Your task to perform on an android device: set default search engine in the chrome app Image 0: 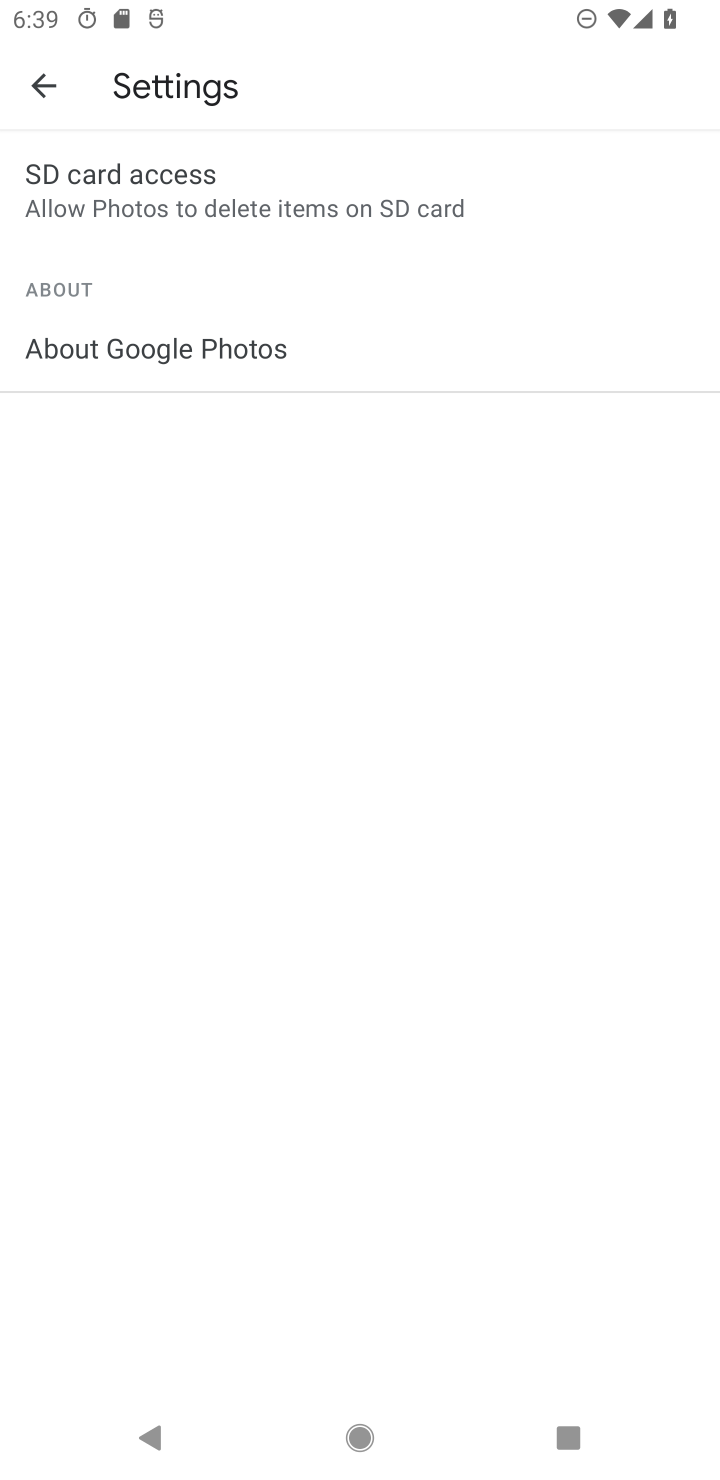
Step 0: press home button
Your task to perform on an android device: set default search engine in the chrome app Image 1: 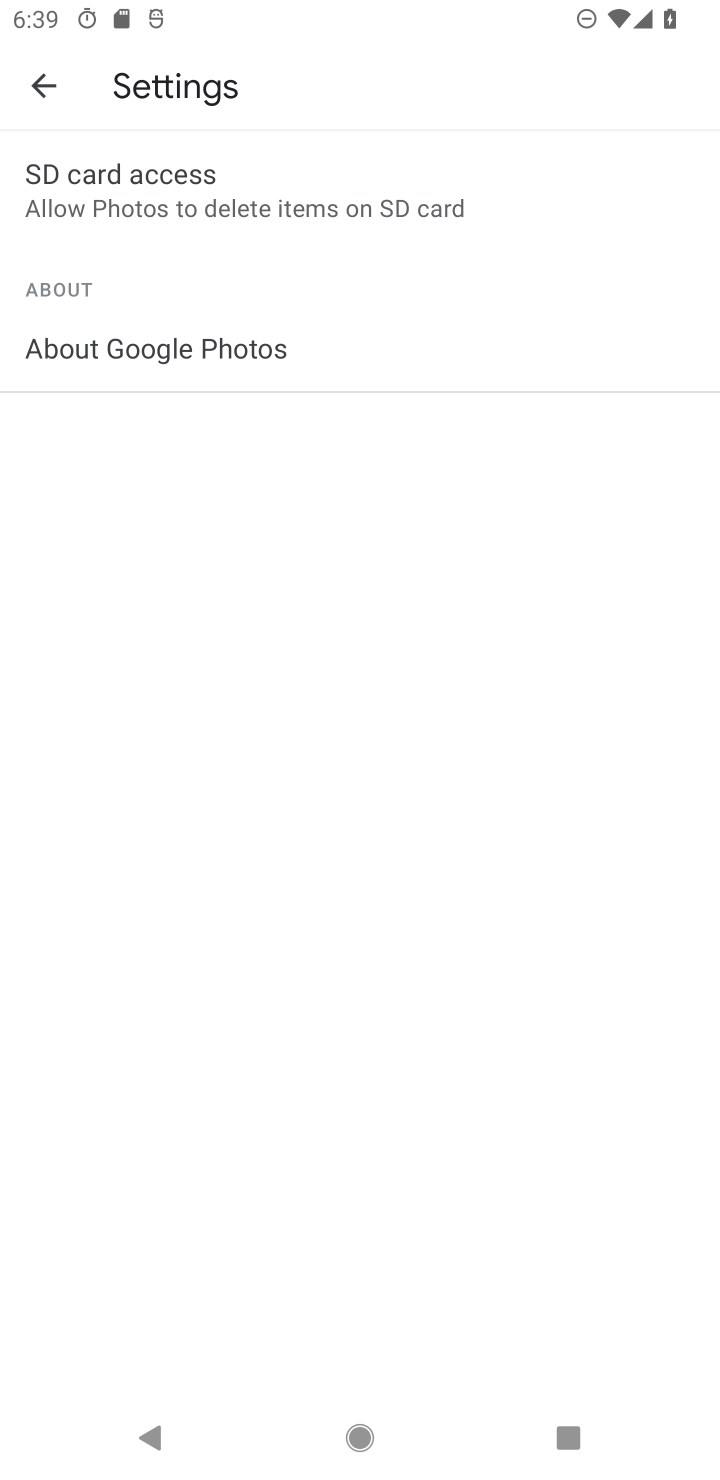
Step 1: drag from (385, 1274) to (476, 75)
Your task to perform on an android device: set default search engine in the chrome app Image 2: 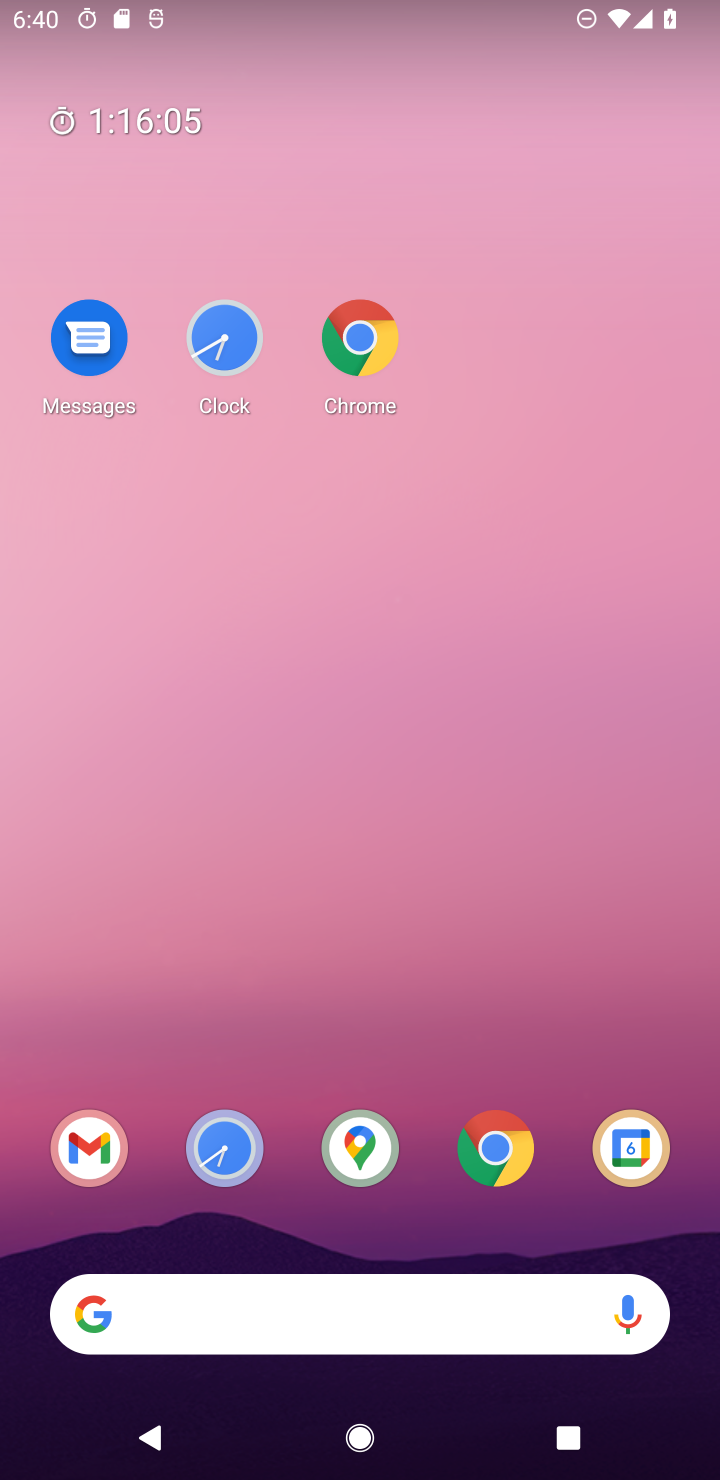
Step 2: click (98, 1142)
Your task to perform on an android device: set default search engine in the chrome app Image 3: 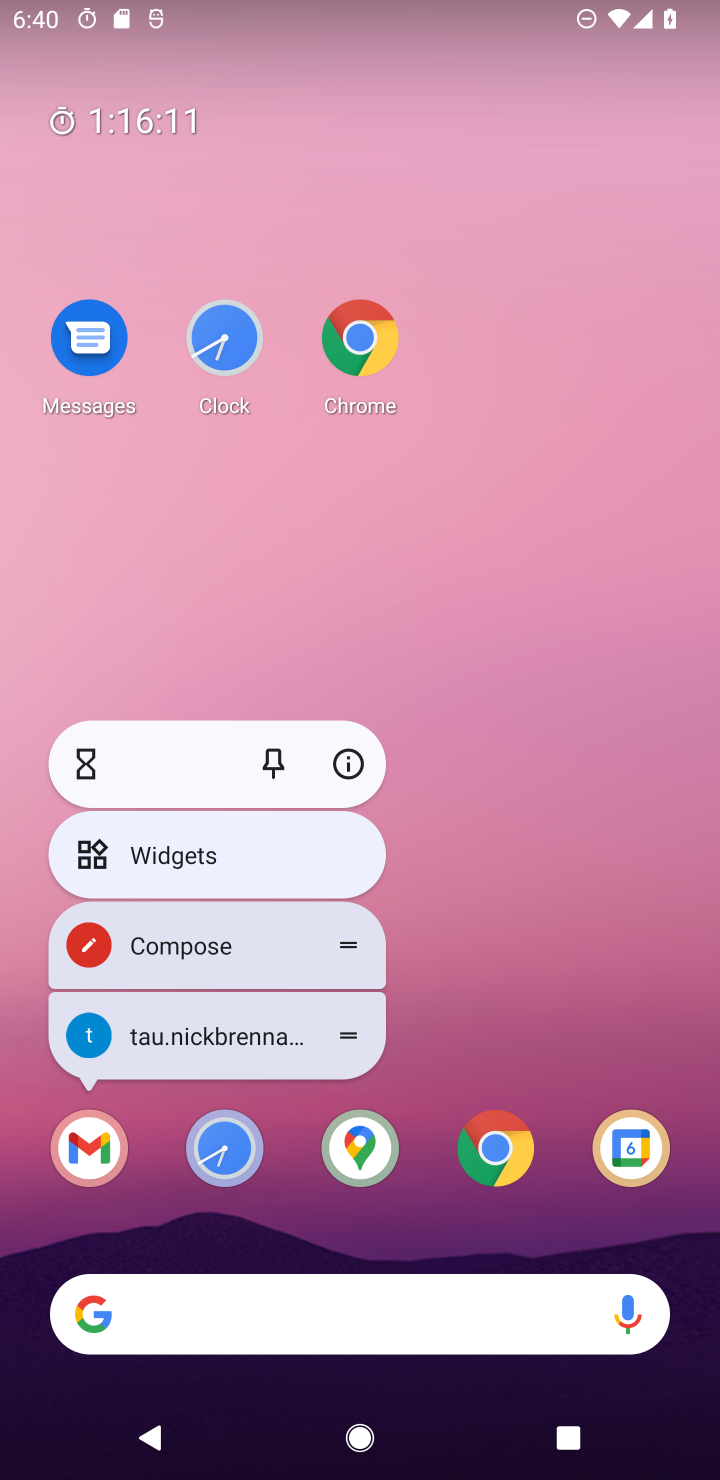
Step 3: click (334, 767)
Your task to perform on an android device: set default search engine in the chrome app Image 4: 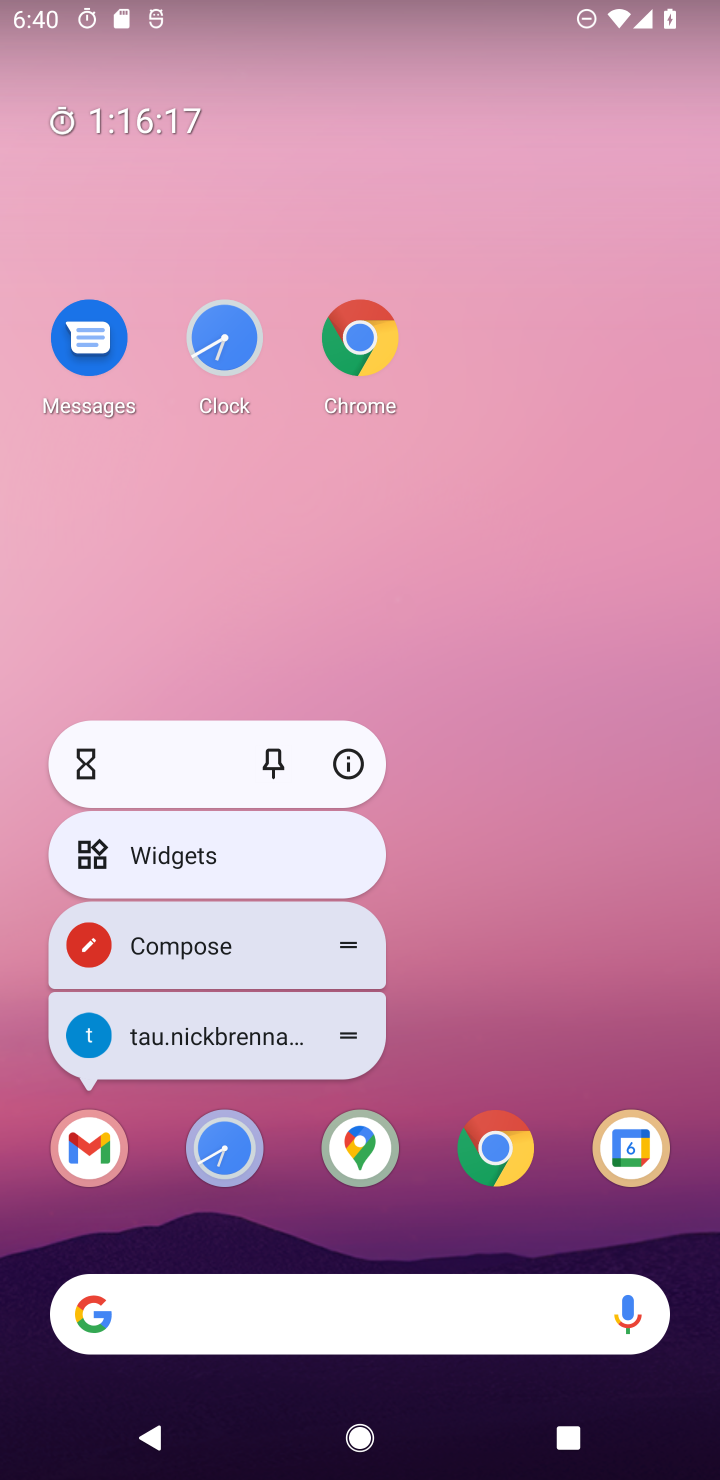
Step 4: click (343, 751)
Your task to perform on an android device: set default search engine in the chrome app Image 5: 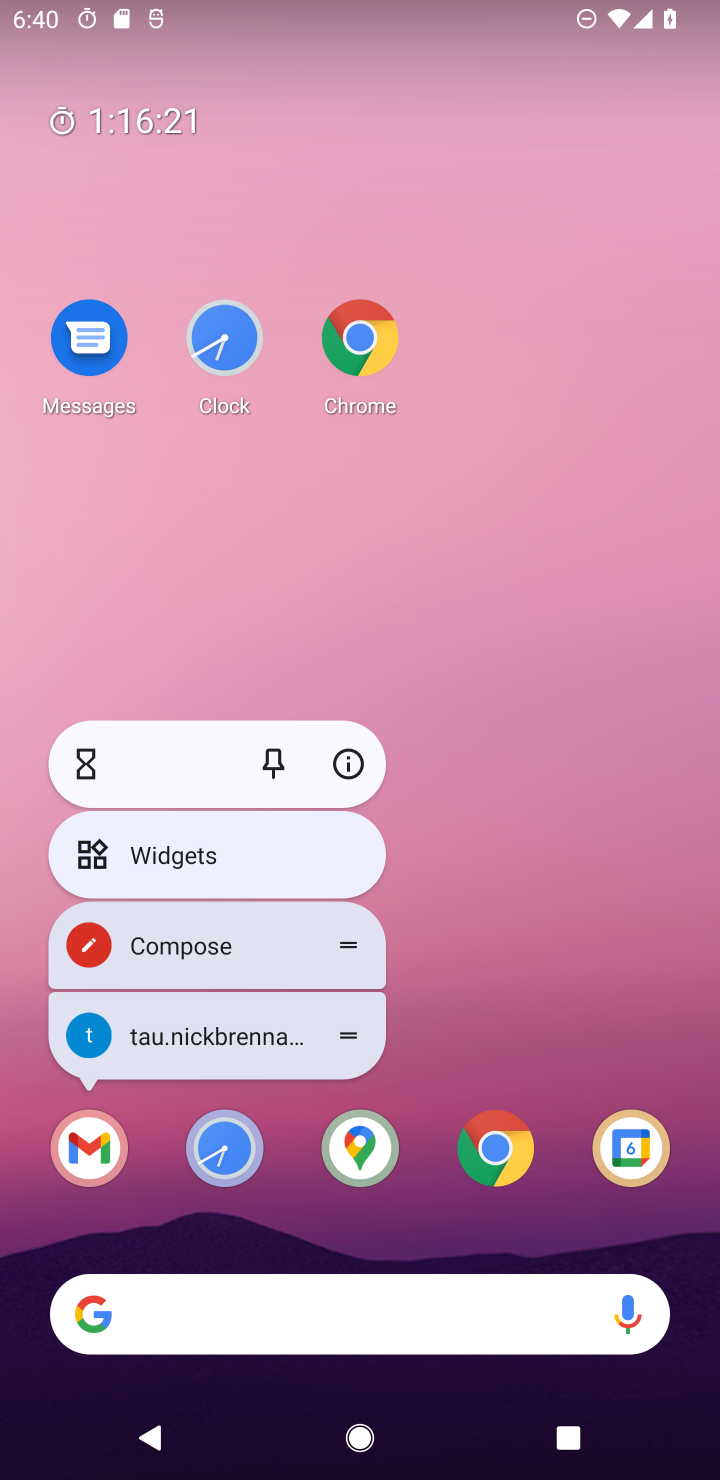
Step 5: click (349, 758)
Your task to perform on an android device: set default search engine in the chrome app Image 6: 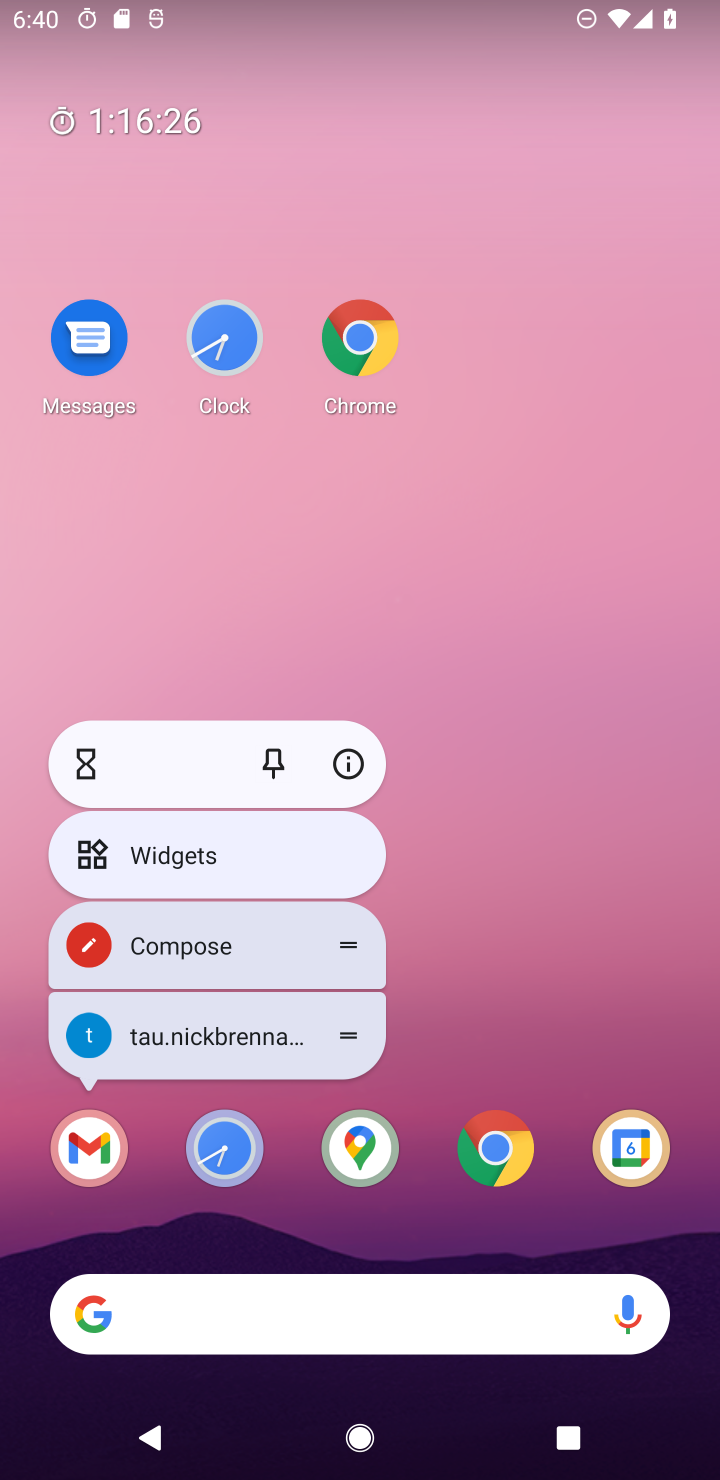
Step 6: click (337, 748)
Your task to perform on an android device: set default search engine in the chrome app Image 7: 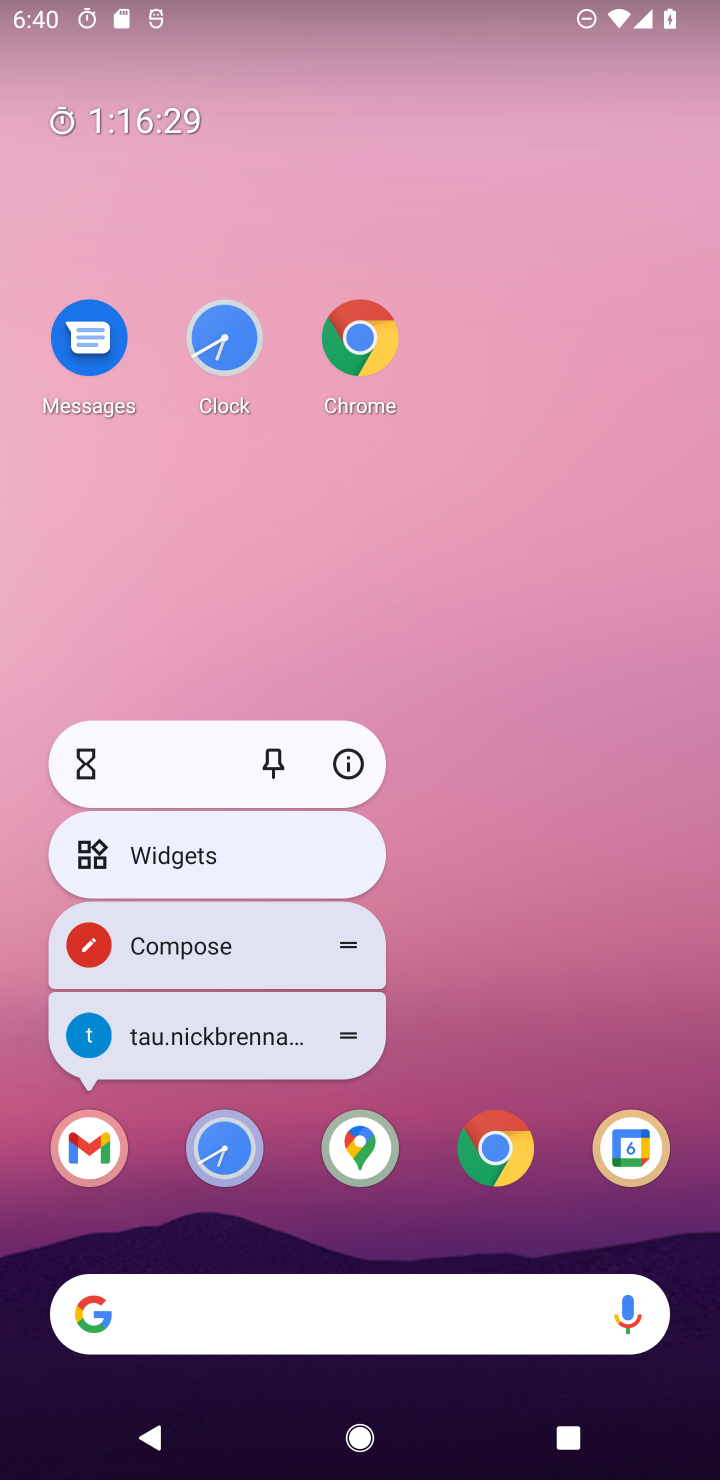
Step 7: click (333, 748)
Your task to perform on an android device: set default search engine in the chrome app Image 8: 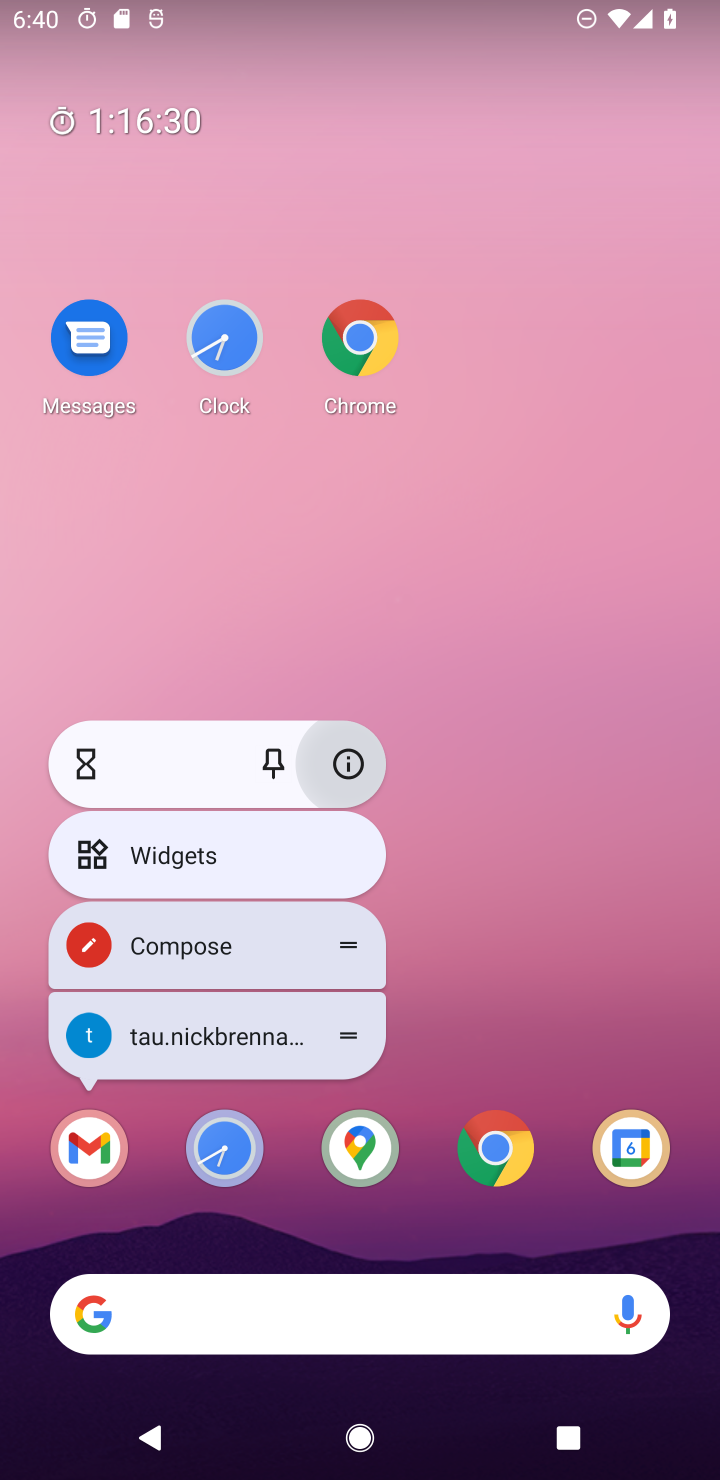
Step 8: click (343, 752)
Your task to perform on an android device: set default search engine in the chrome app Image 9: 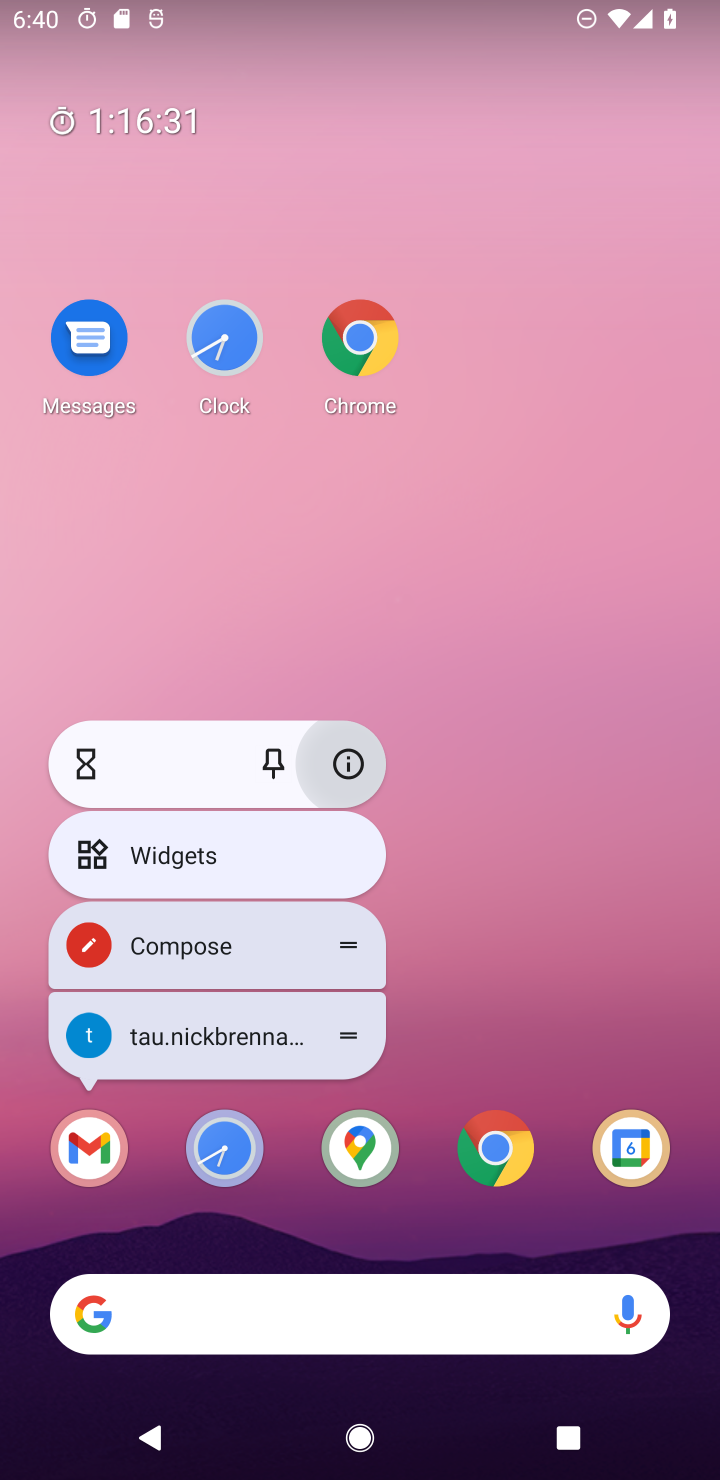
Step 9: click (339, 752)
Your task to perform on an android device: set default search engine in the chrome app Image 10: 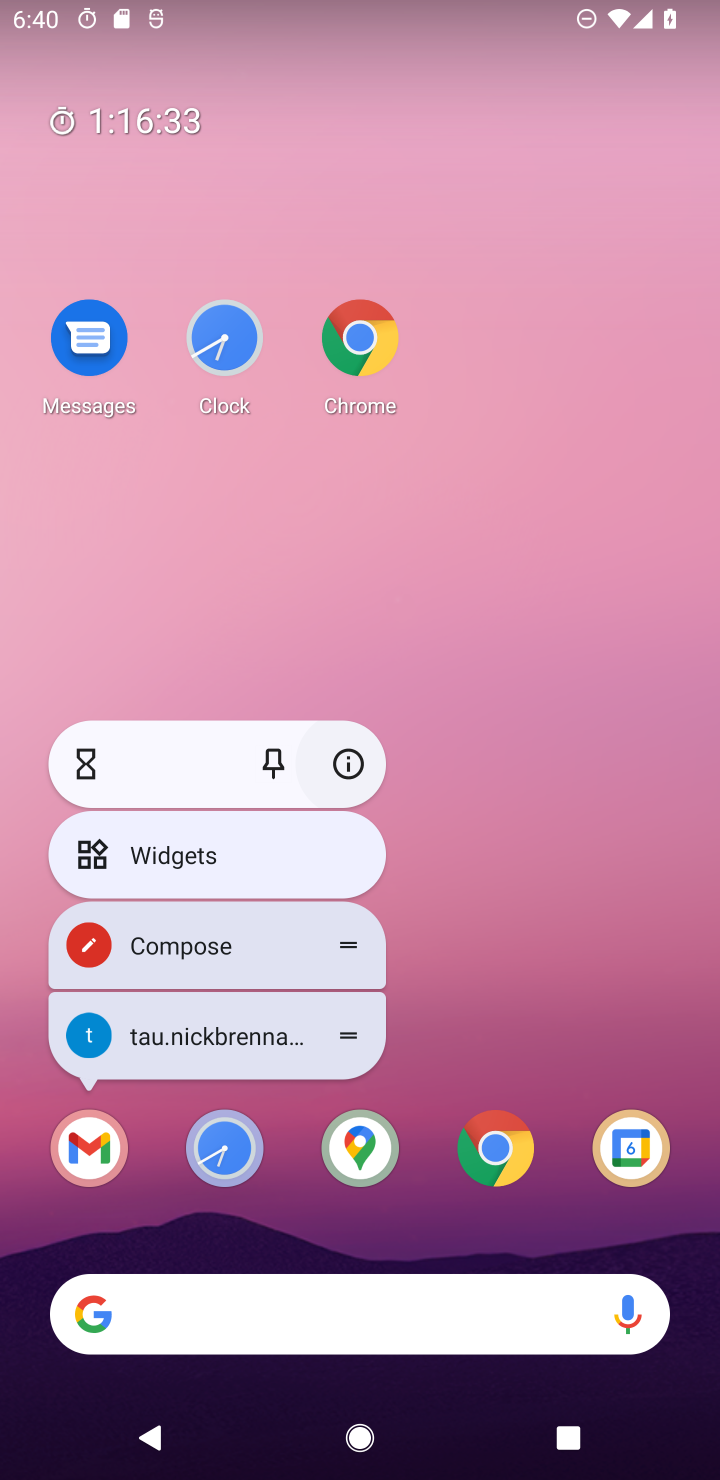
Step 10: click (102, 1124)
Your task to perform on an android device: set default search engine in the chrome app Image 11: 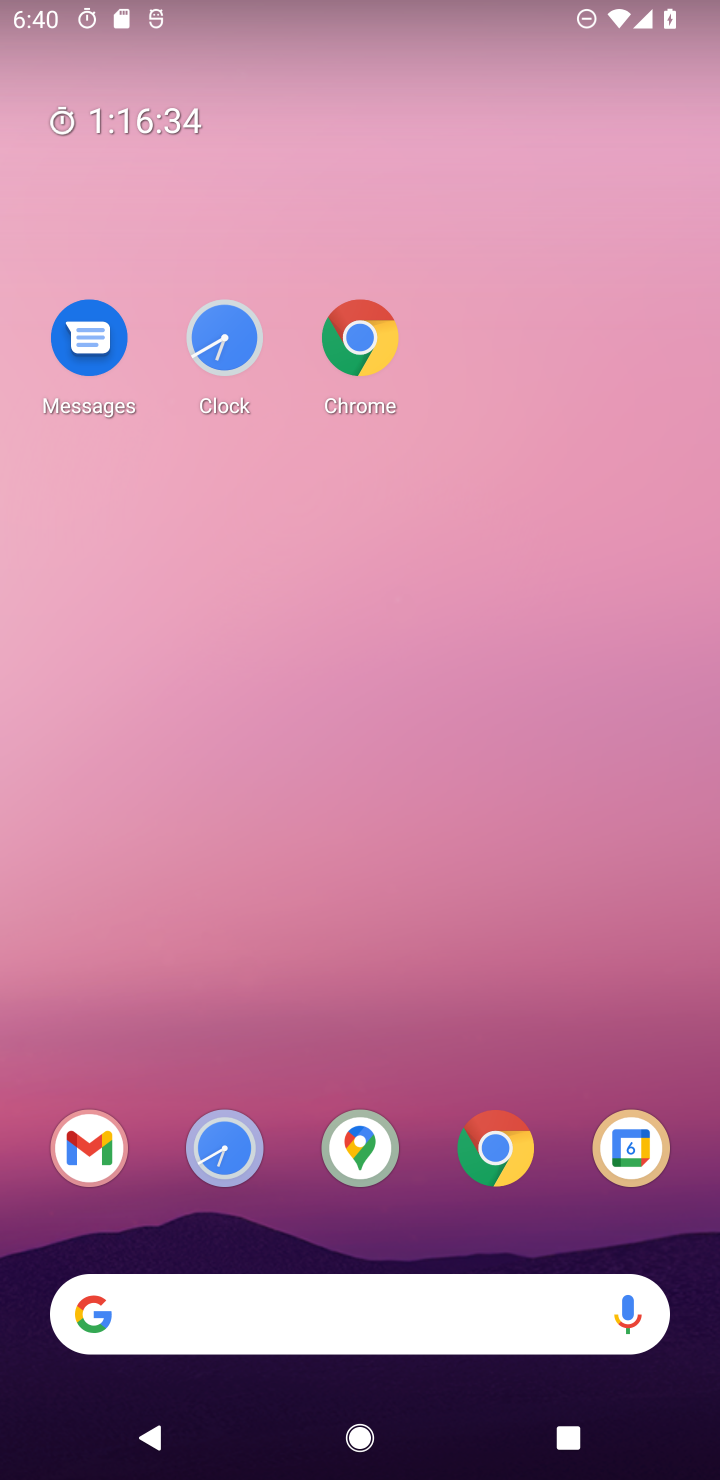
Step 11: click (92, 1120)
Your task to perform on an android device: set default search engine in the chrome app Image 12: 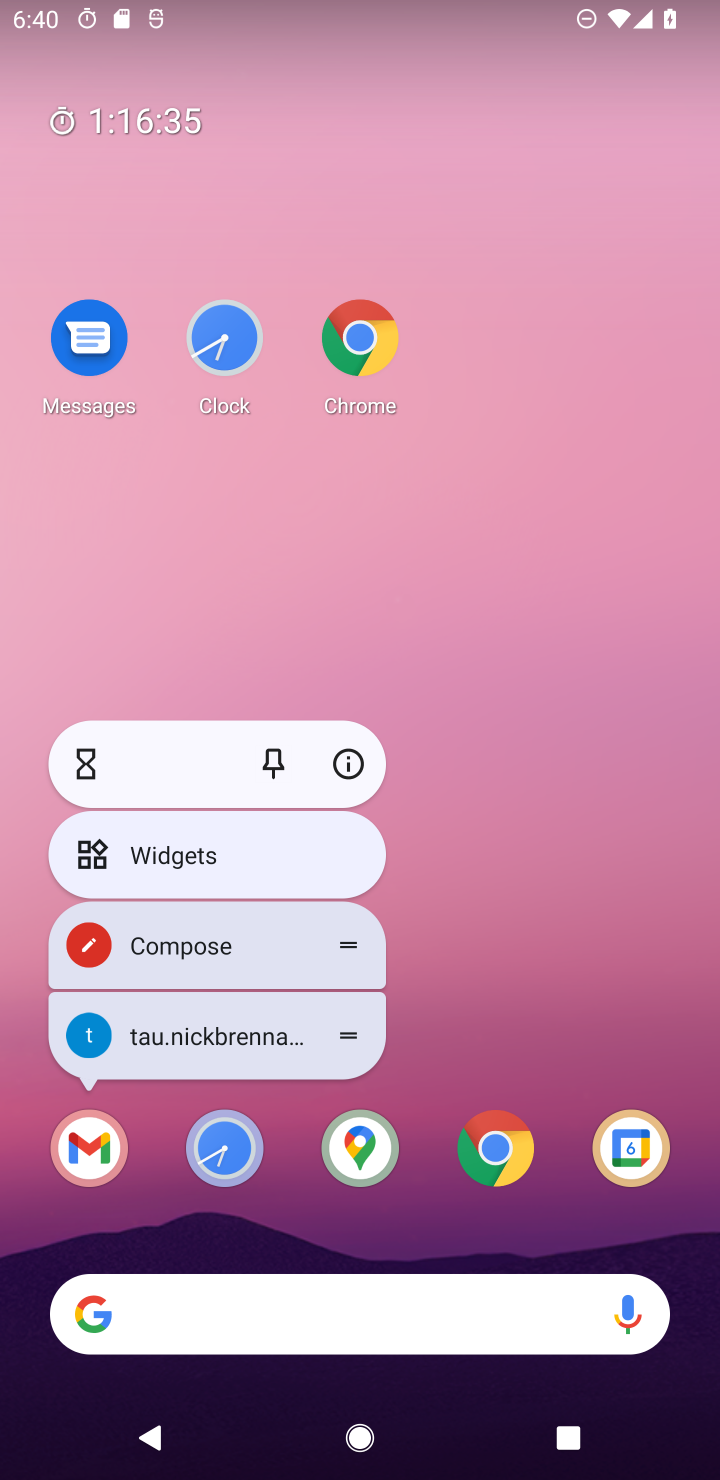
Step 12: click (92, 1120)
Your task to perform on an android device: set default search engine in the chrome app Image 13: 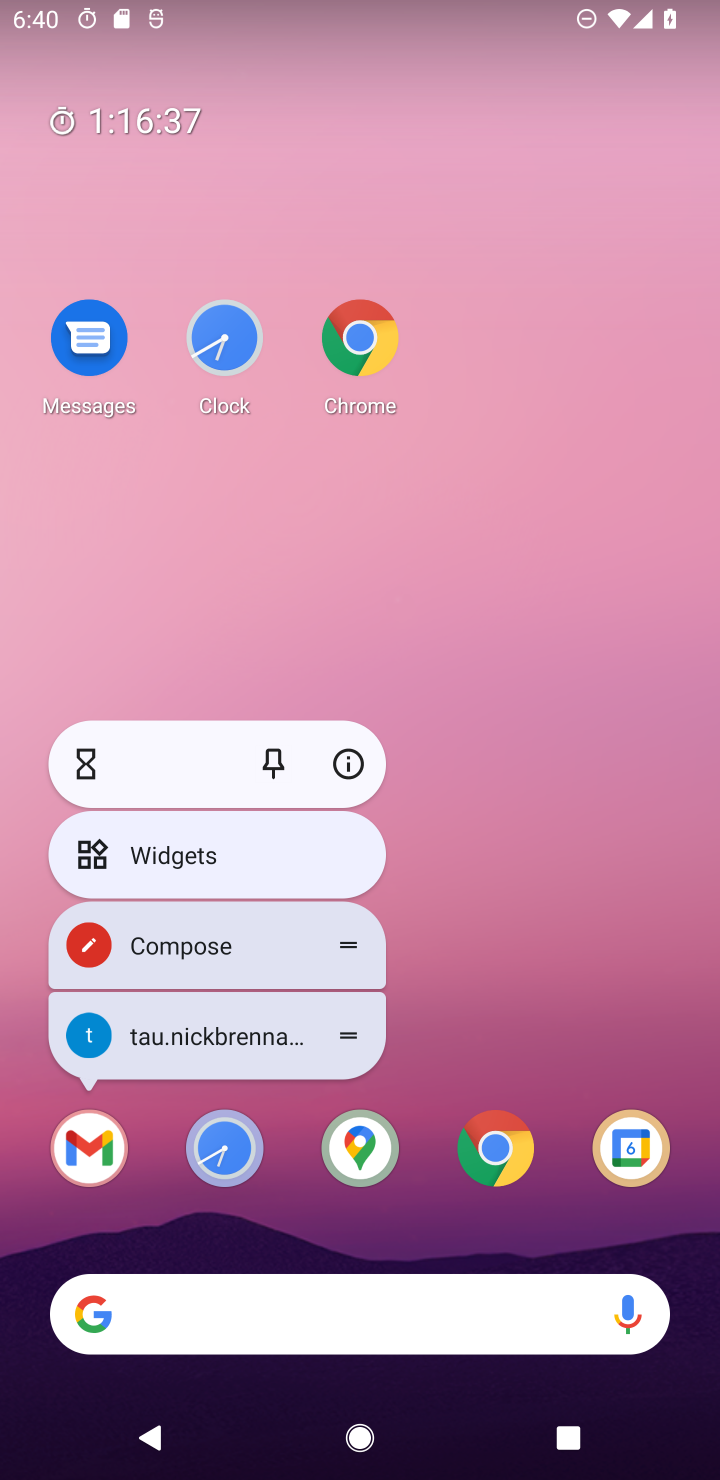
Step 13: click (92, 1120)
Your task to perform on an android device: set default search engine in the chrome app Image 14: 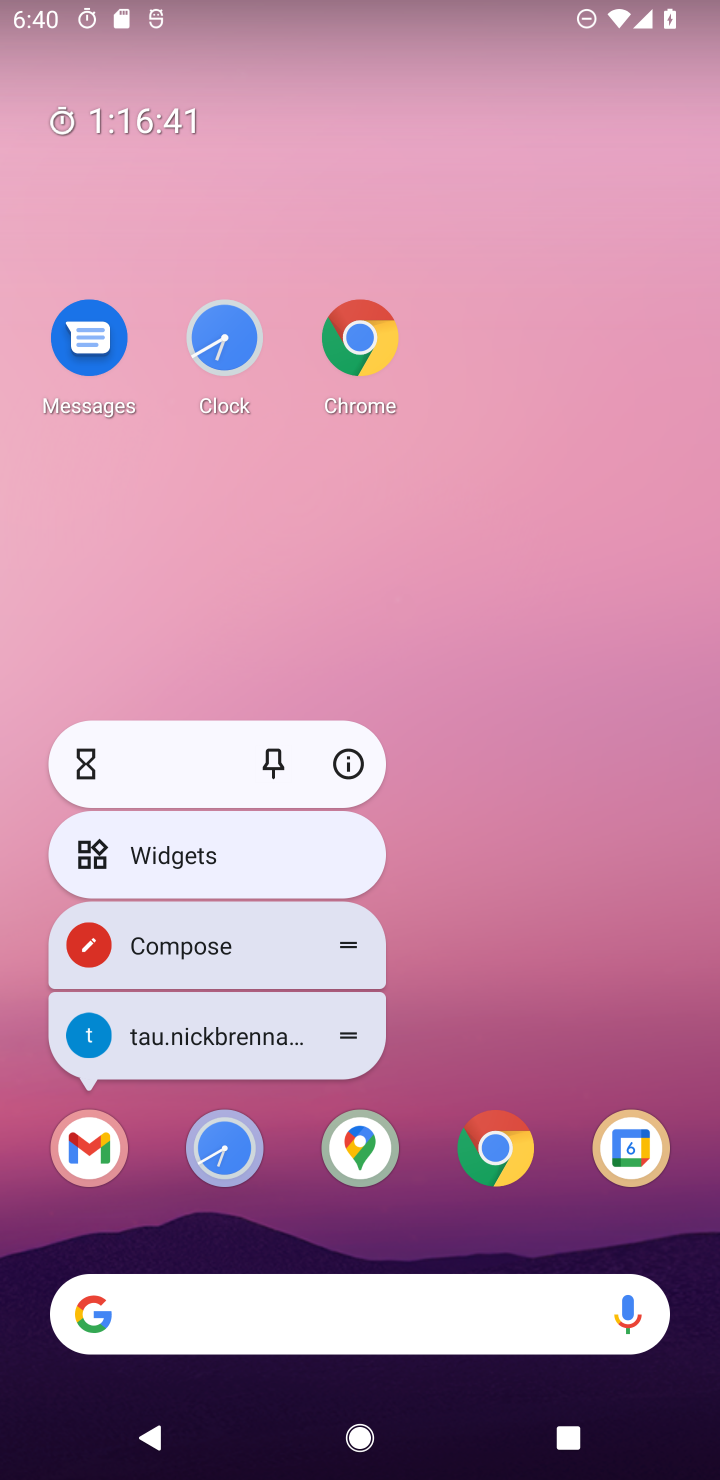
Step 14: click (338, 769)
Your task to perform on an android device: set default search engine in the chrome app Image 15: 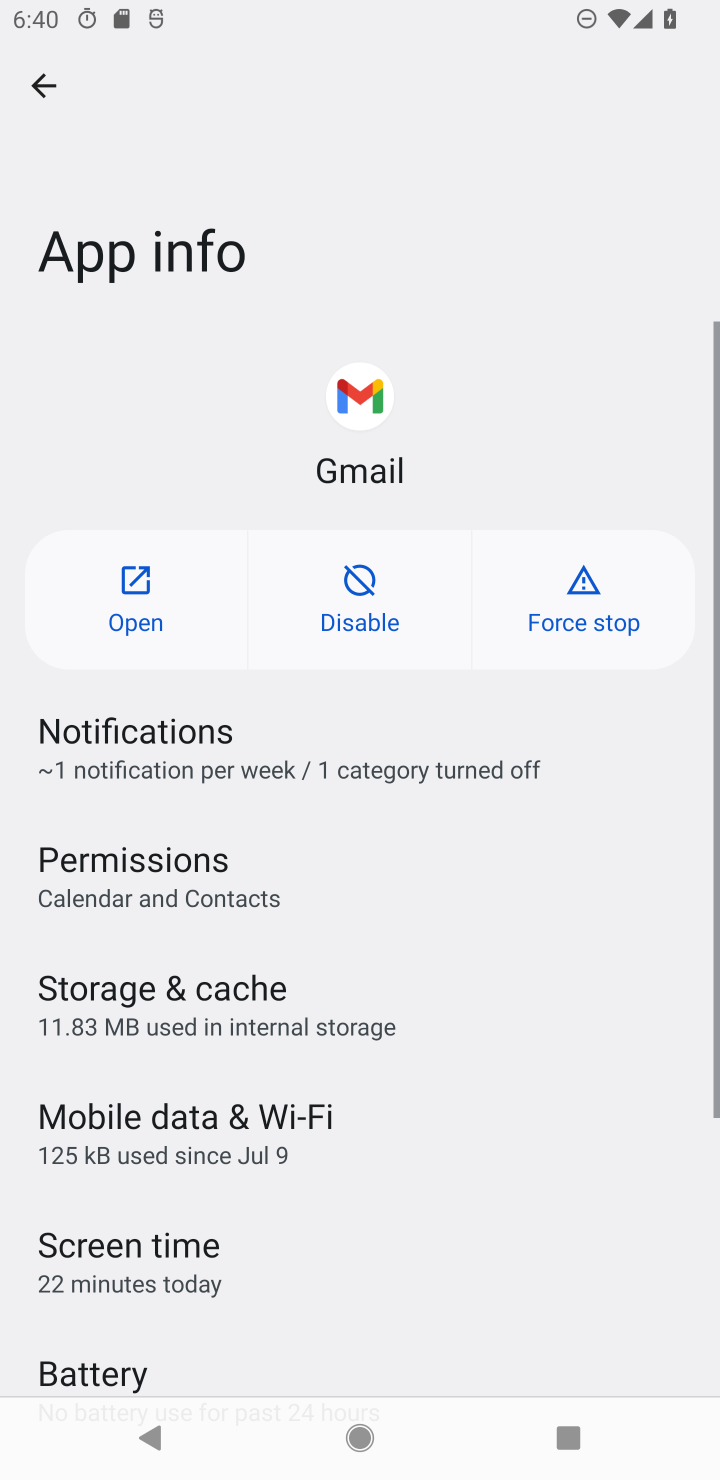
Step 15: click (136, 629)
Your task to perform on an android device: set default search engine in the chrome app Image 16: 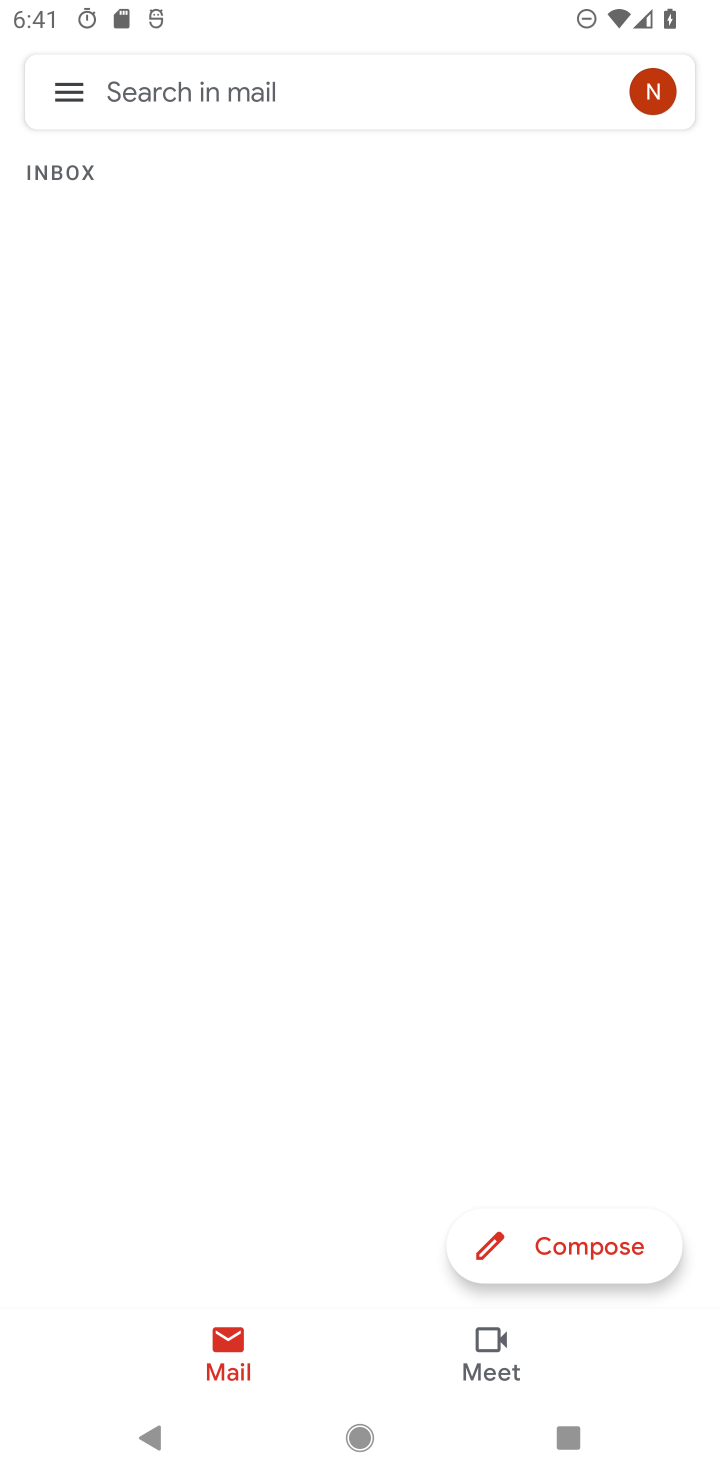
Step 16: press home button
Your task to perform on an android device: set default search engine in the chrome app Image 17: 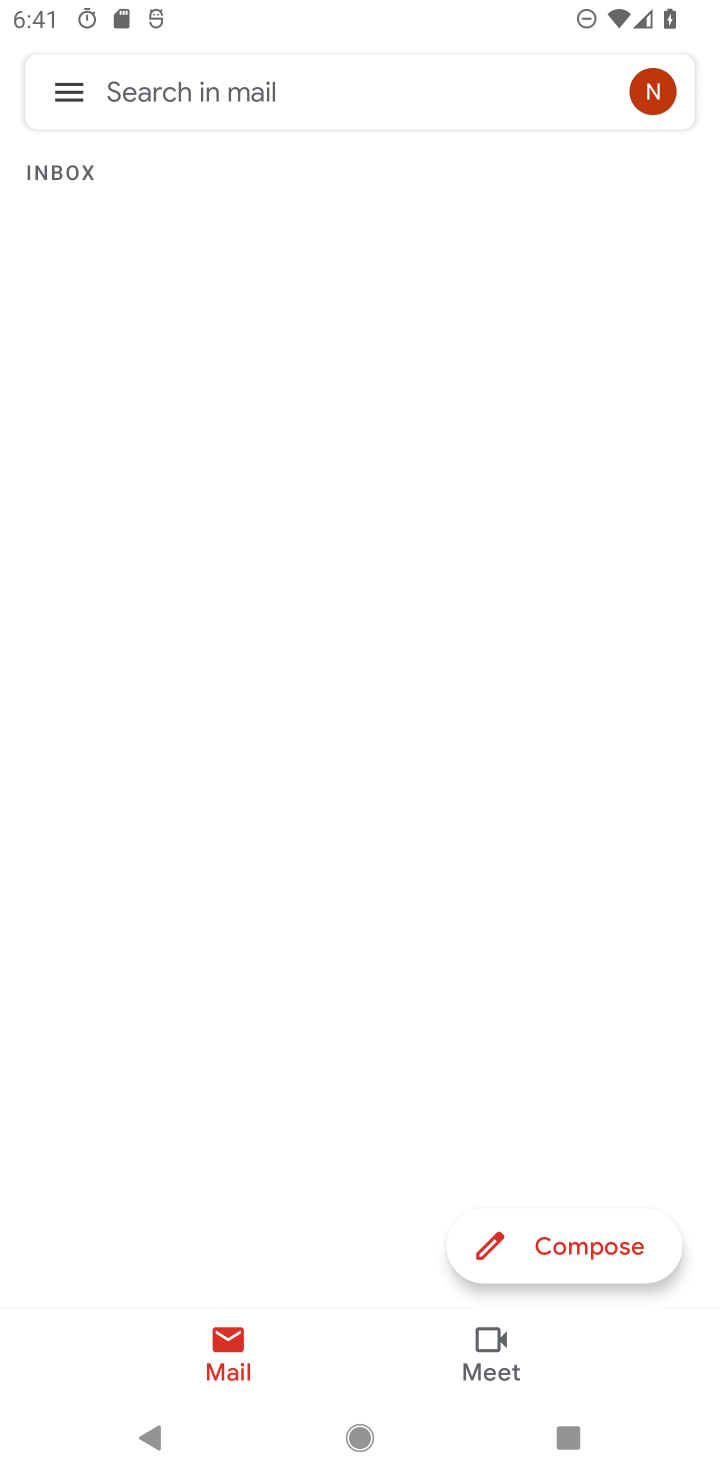
Step 17: drag from (381, 1085) to (412, 398)
Your task to perform on an android device: set default search engine in the chrome app Image 18: 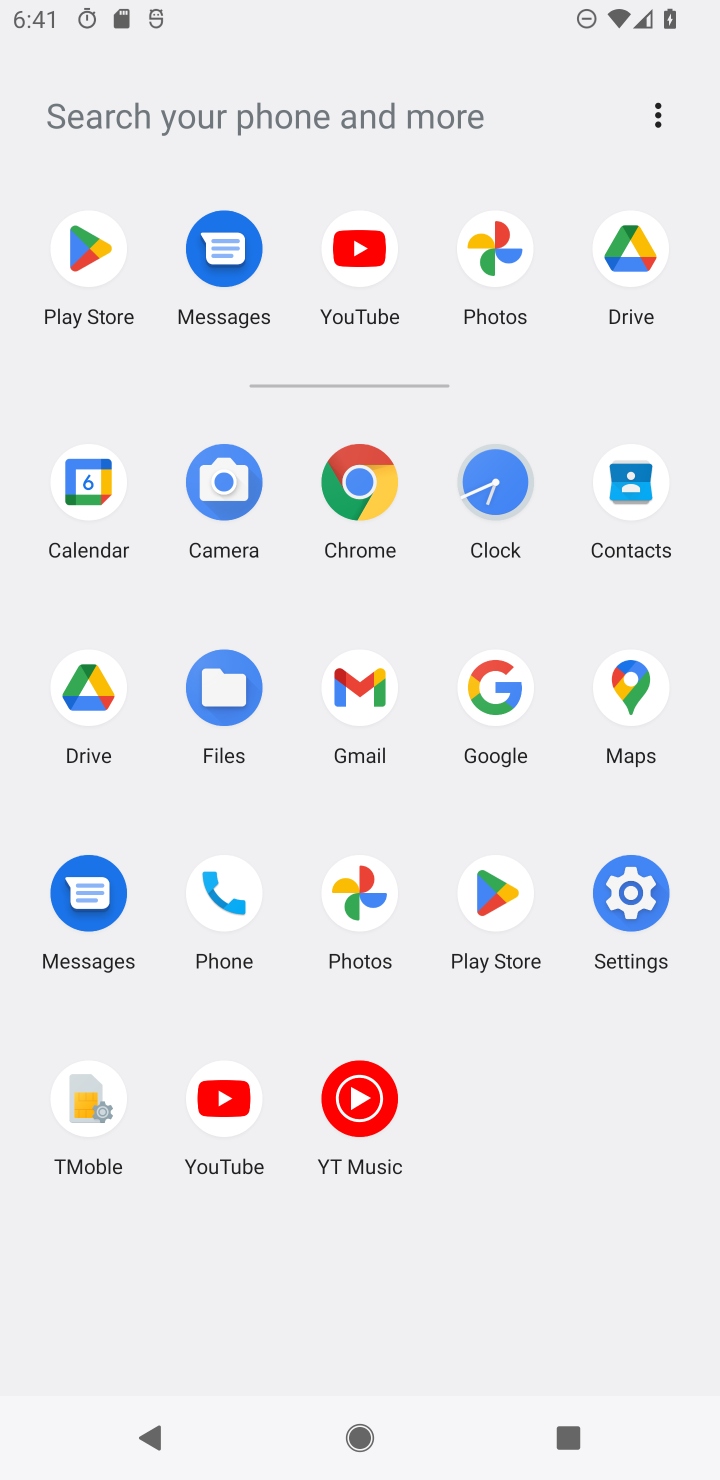
Step 18: click (368, 482)
Your task to perform on an android device: set default search engine in the chrome app Image 19: 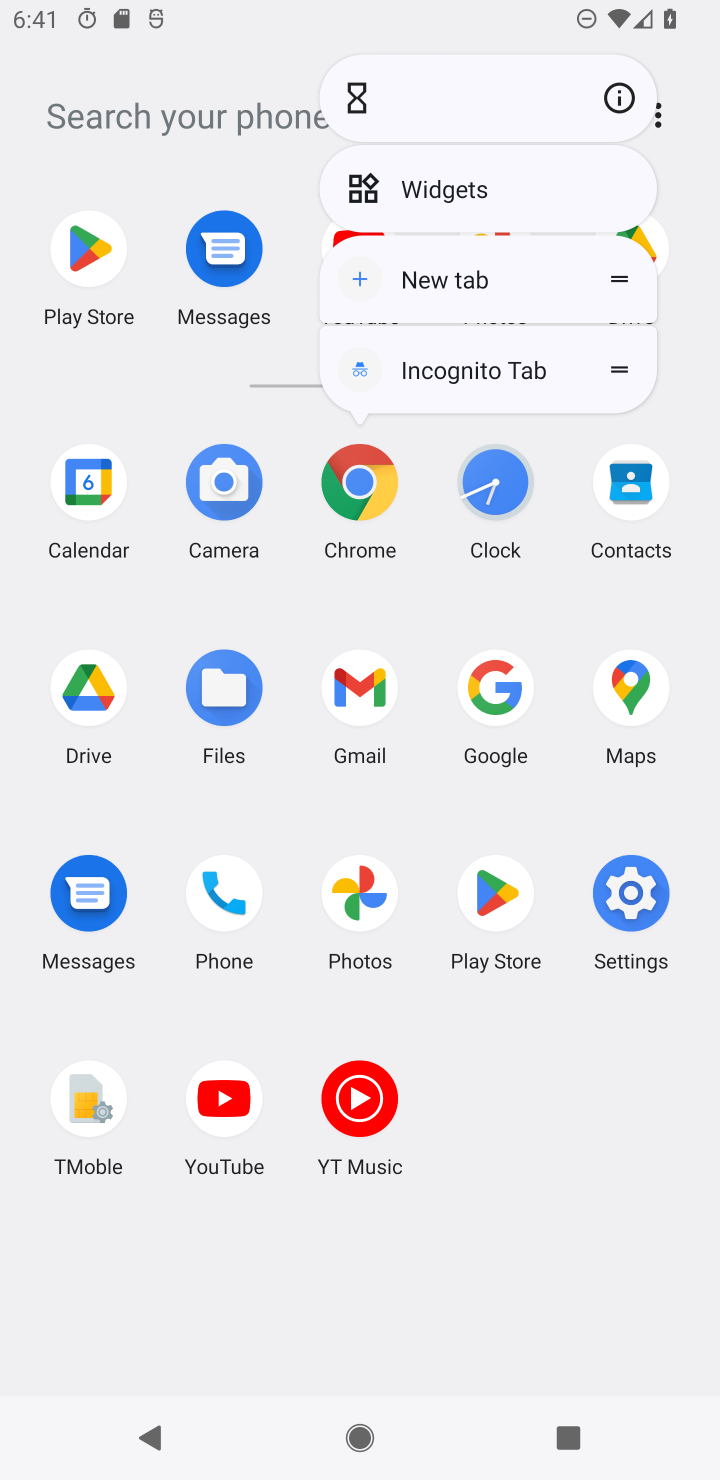
Step 19: click (363, 487)
Your task to perform on an android device: set default search engine in the chrome app Image 20: 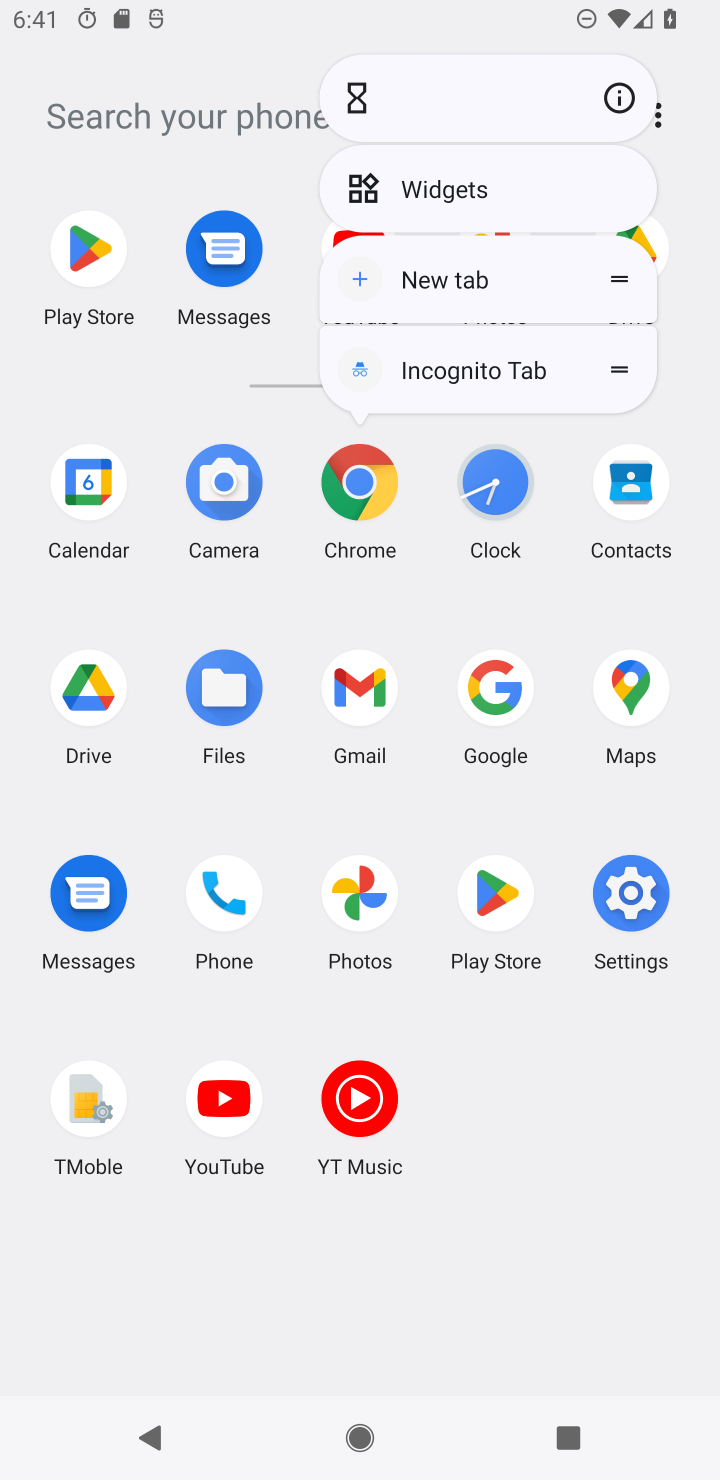
Step 20: click (363, 487)
Your task to perform on an android device: set default search engine in the chrome app Image 21: 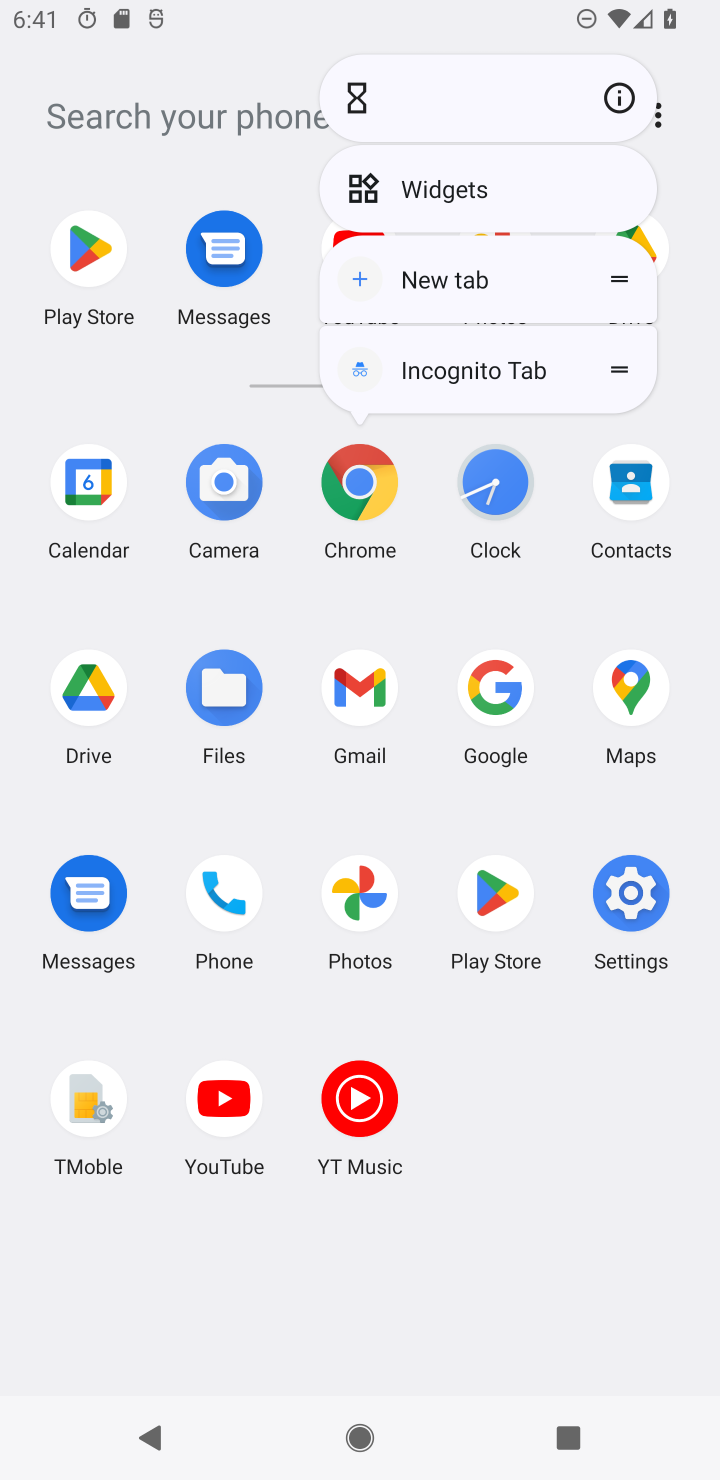
Step 21: click (363, 487)
Your task to perform on an android device: set default search engine in the chrome app Image 22: 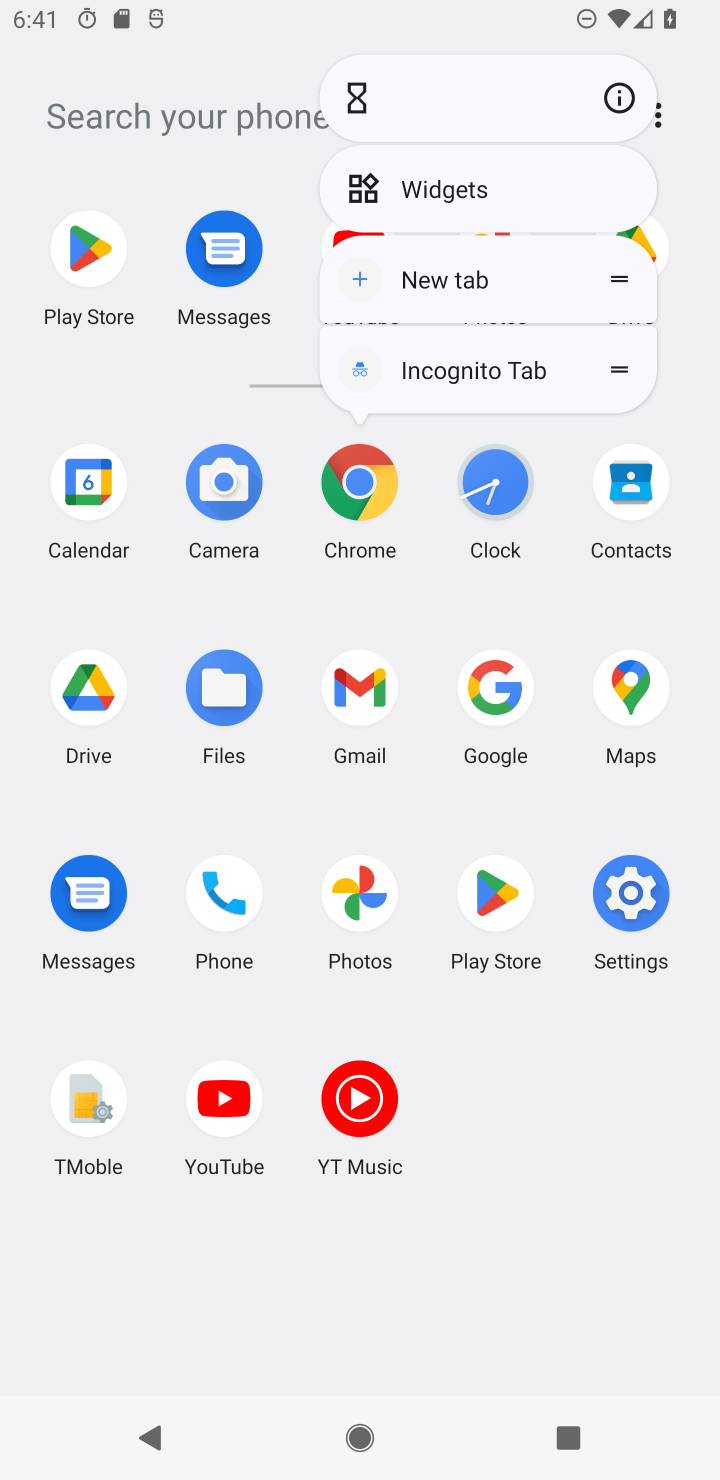
Step 22: click (363, 487)
Your task to perform on an android device: set default search engine in the chrome app Image 23: 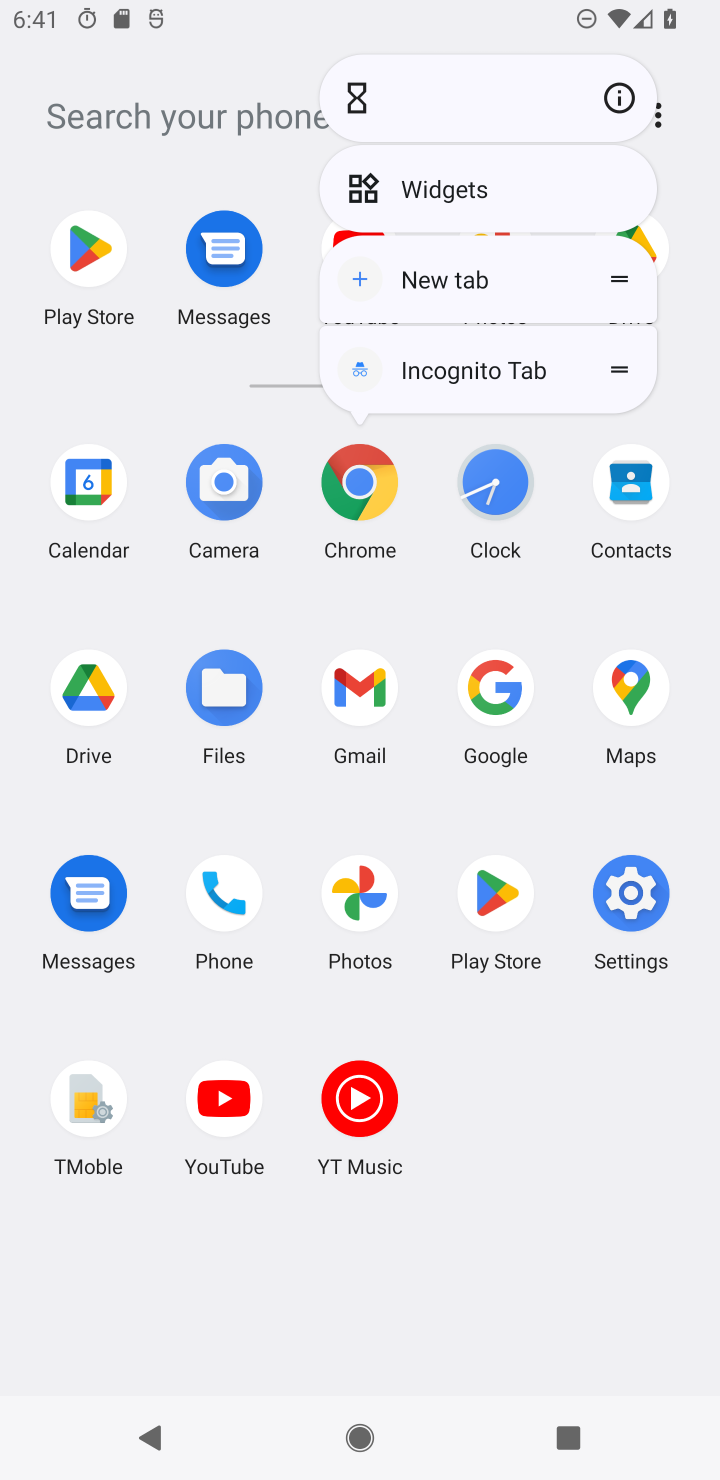
Step 23: click (613, 78)
Your task to perform on an android device: set default search engine in the chrome app Image 24: 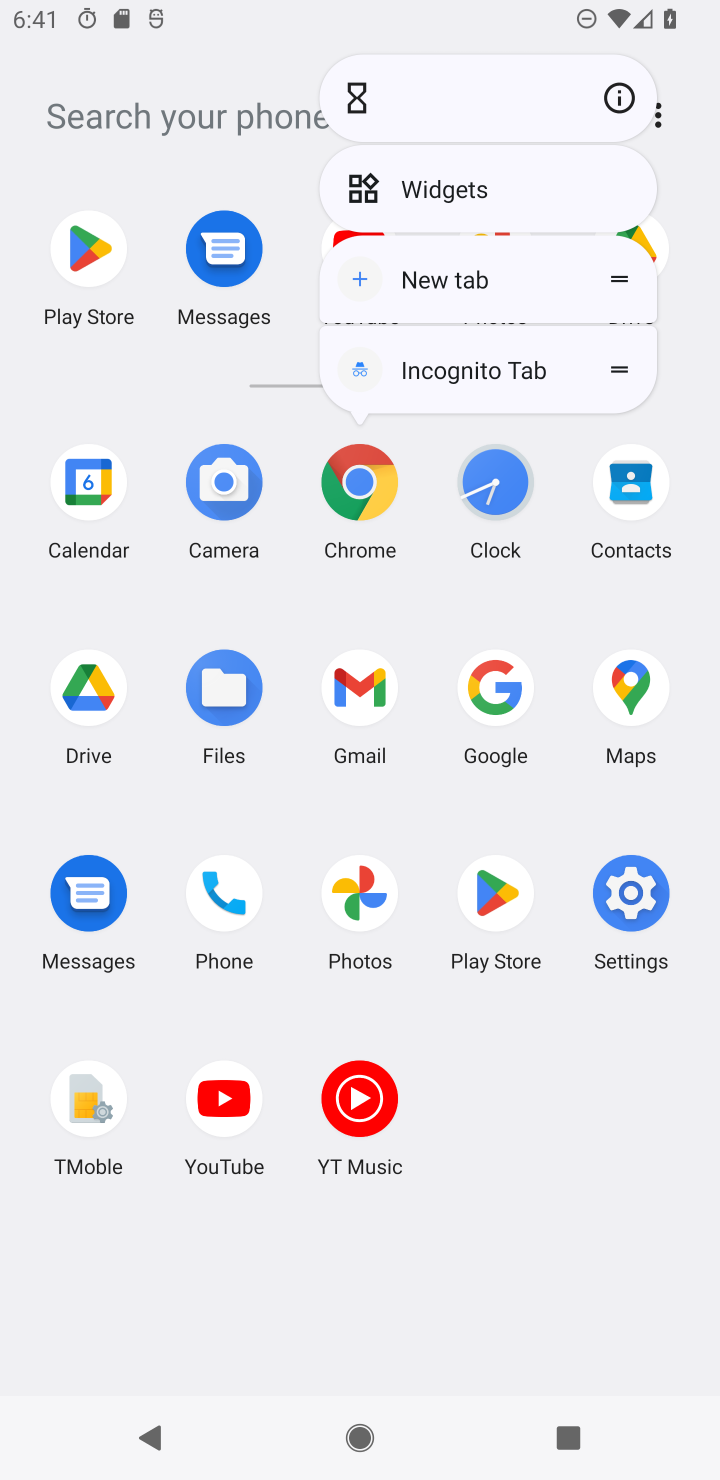
Step 24: click (627, 88)
Your task to perform on an android device: set default search engine in the chrome app Image 25: 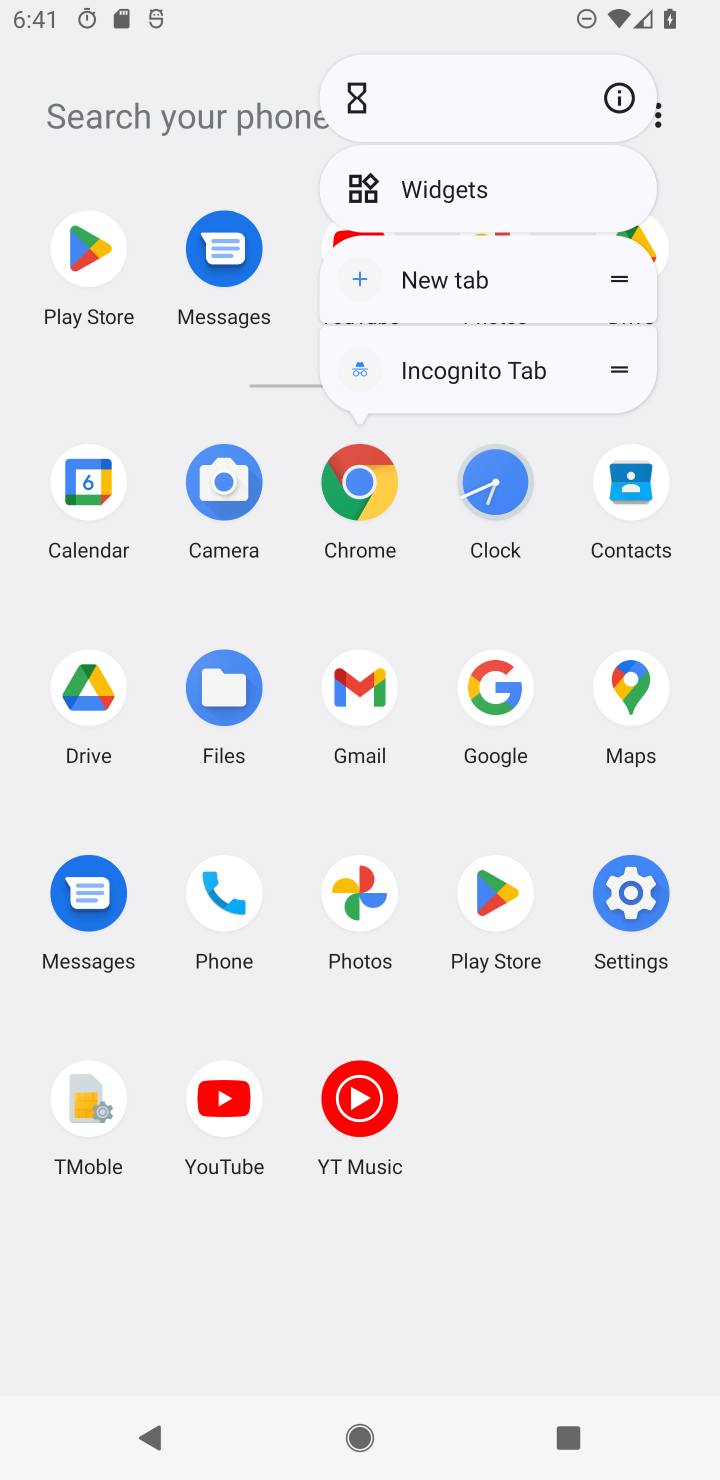
Step 25: click (365, 495)
Your task to perform on an android device: set default search engine in the chrome app Image 26: 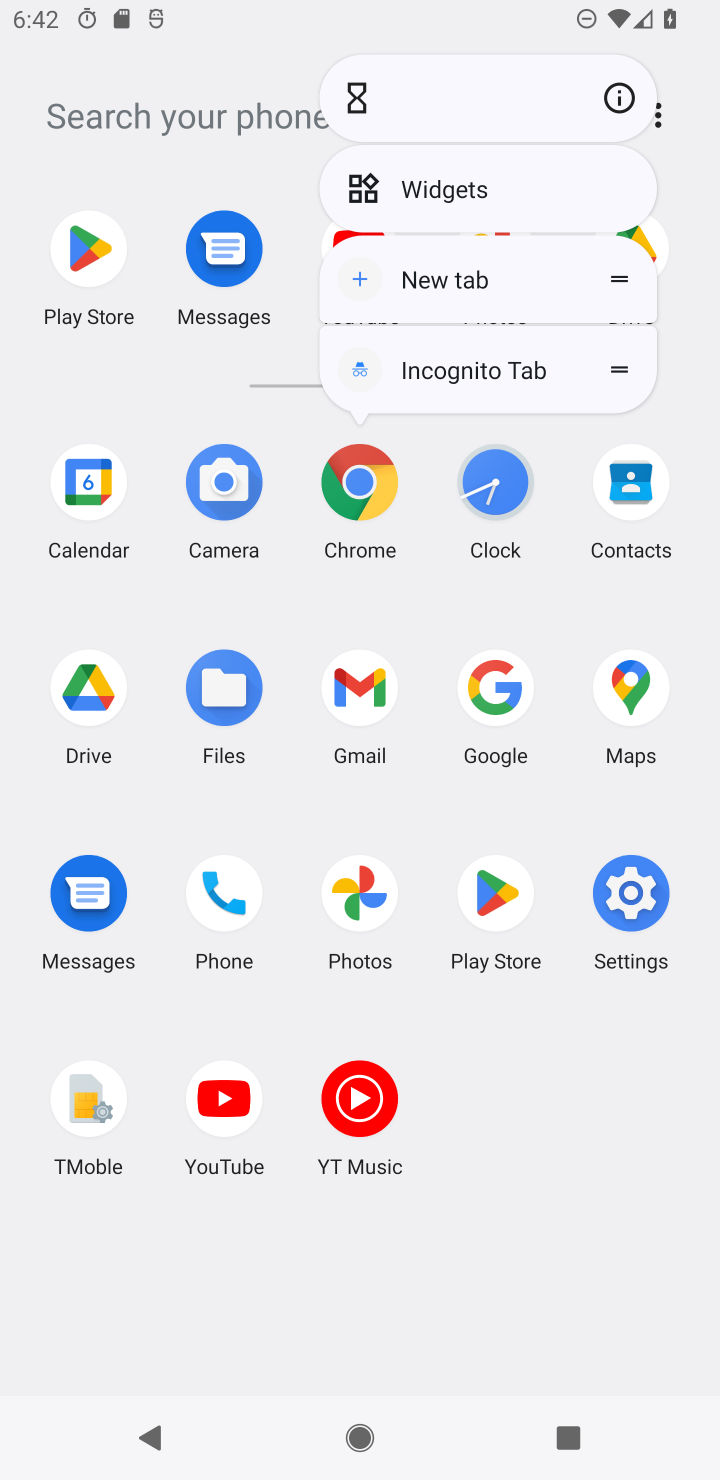
Step 26: click (627, 101)
Your task to perform on an android device: set default search engine in the chrome app Image 27: 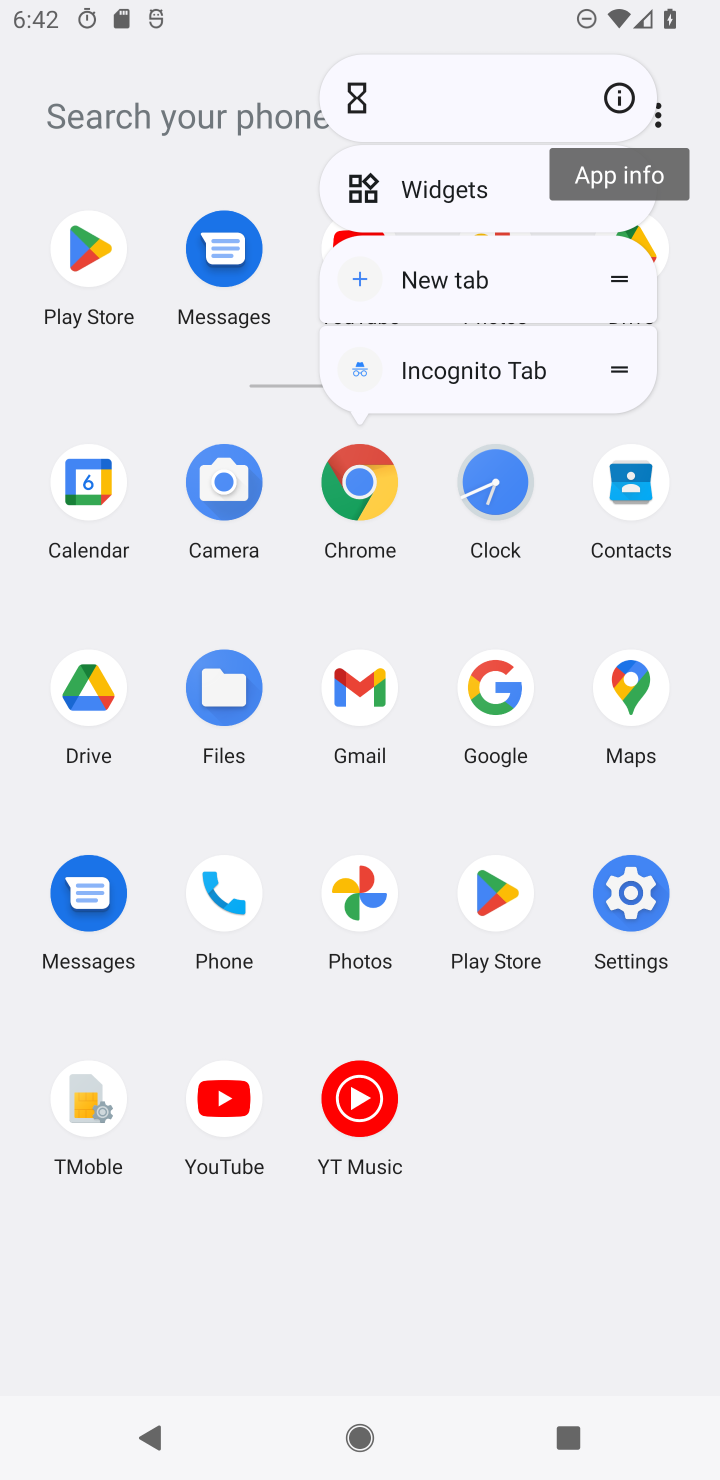
Step 27: click (625, 97)
Your task to perform on an android device: set default search engine in the chrome app Image 28: 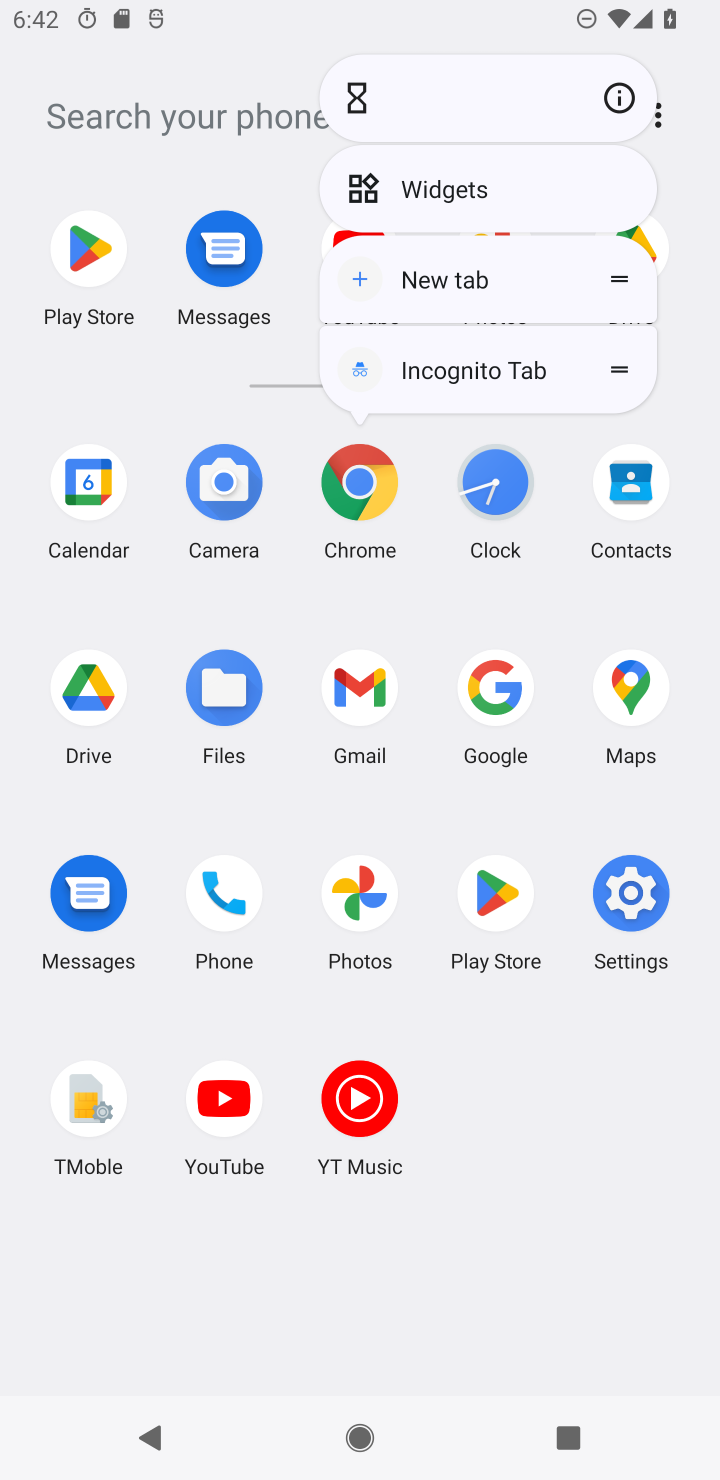
Step 28: click (355, 464)
Your task to perform on an android device: set default search engine in the chrome app Image 29: 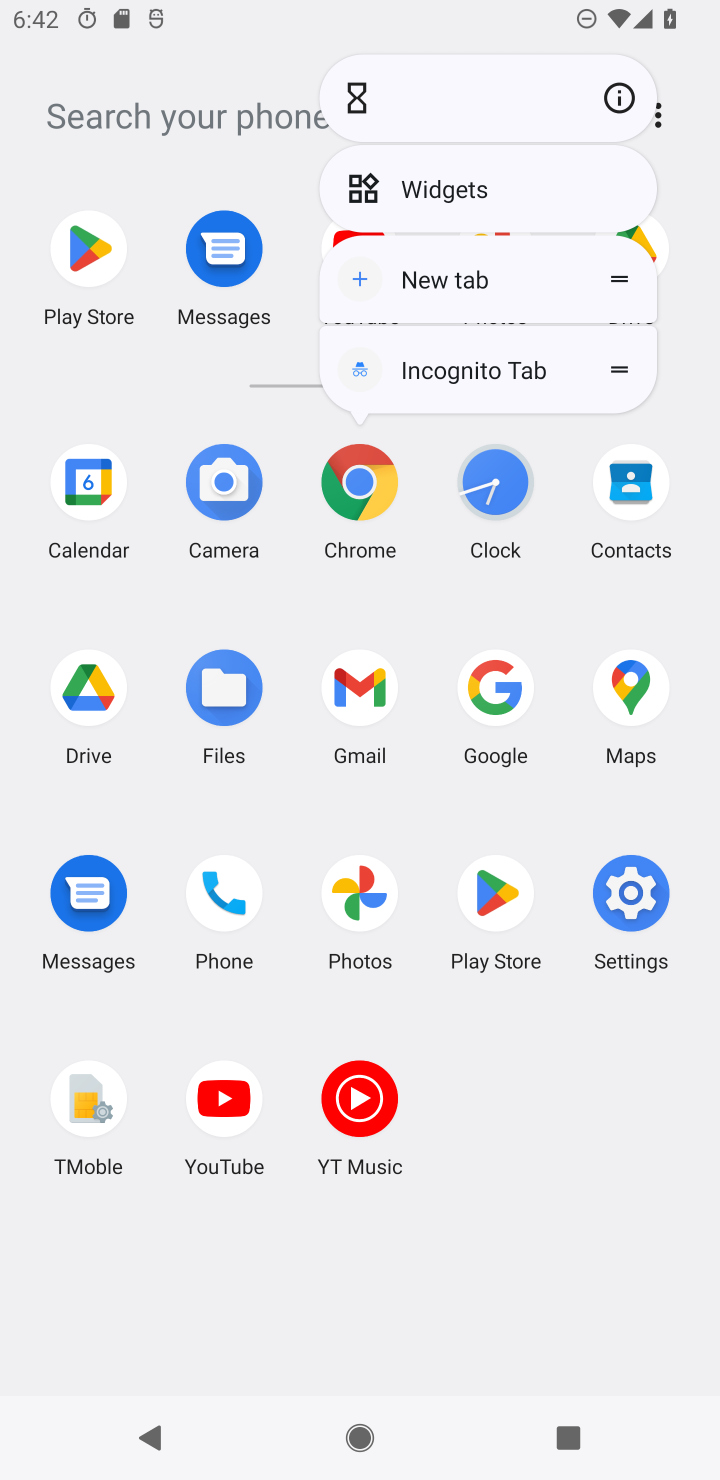
Step 29: click (348, 466)
Your task to perform on an android device: set default search engine in the chrome app Image 30: 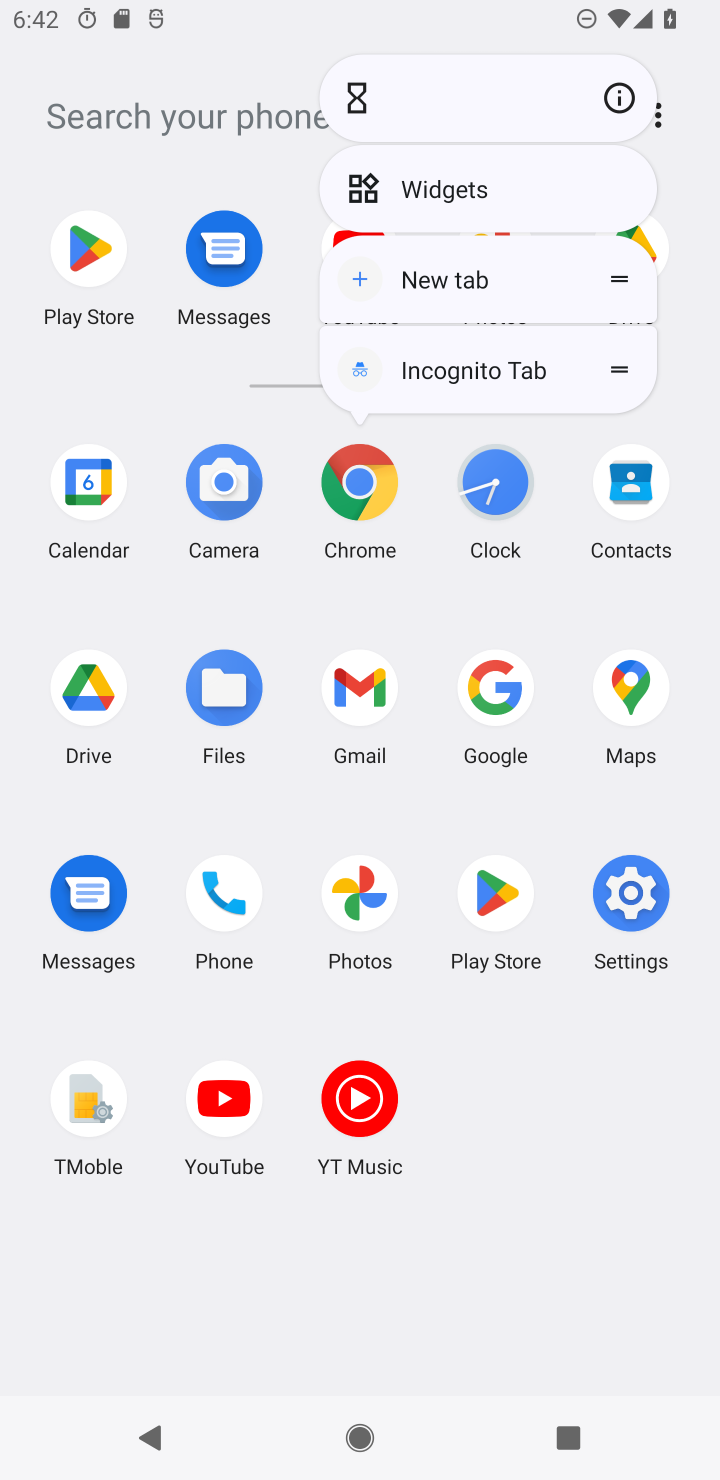
Step 30: click (617, 93)
Your task to perform on an android device: set default search engine in the chrome app Image 31: 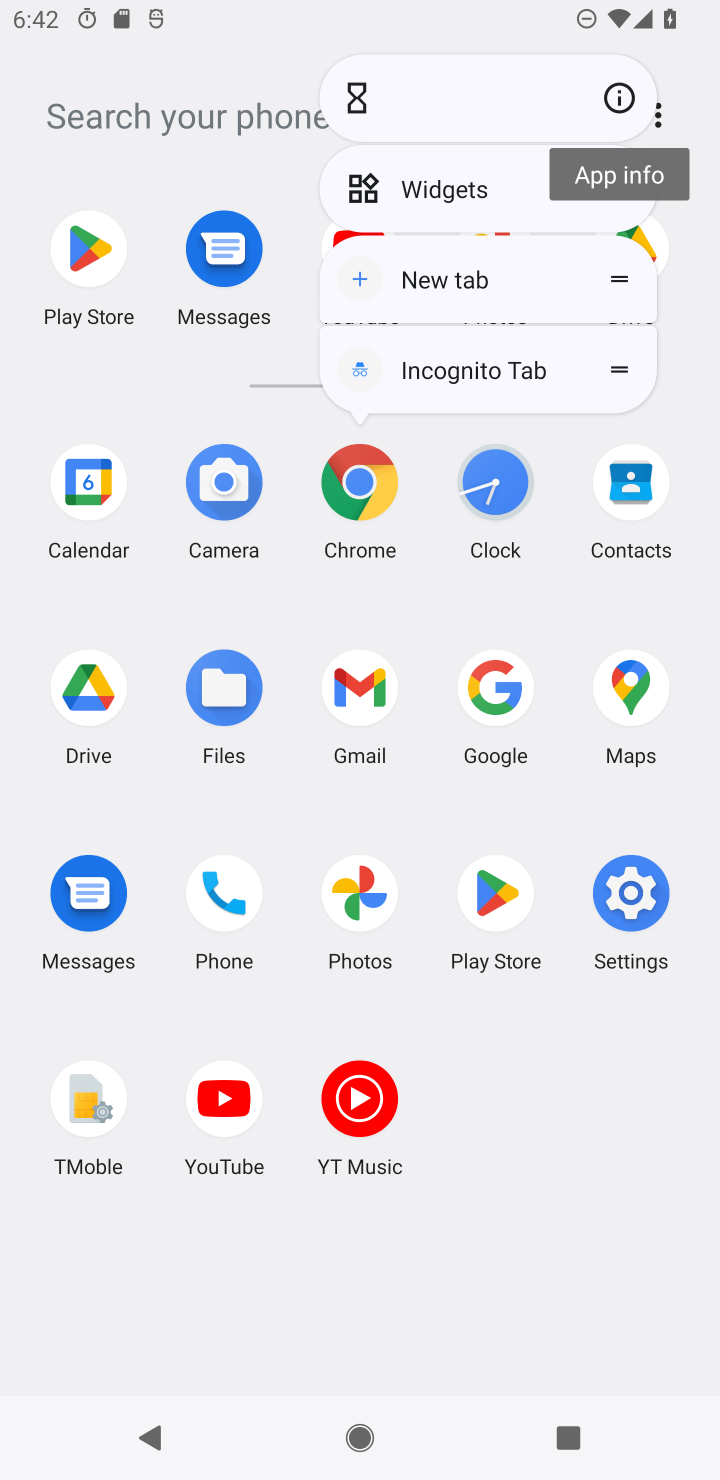
Step 31: click (611, 76)
Your task to perform on an android device: set default search engine in the chrome app Image 32: 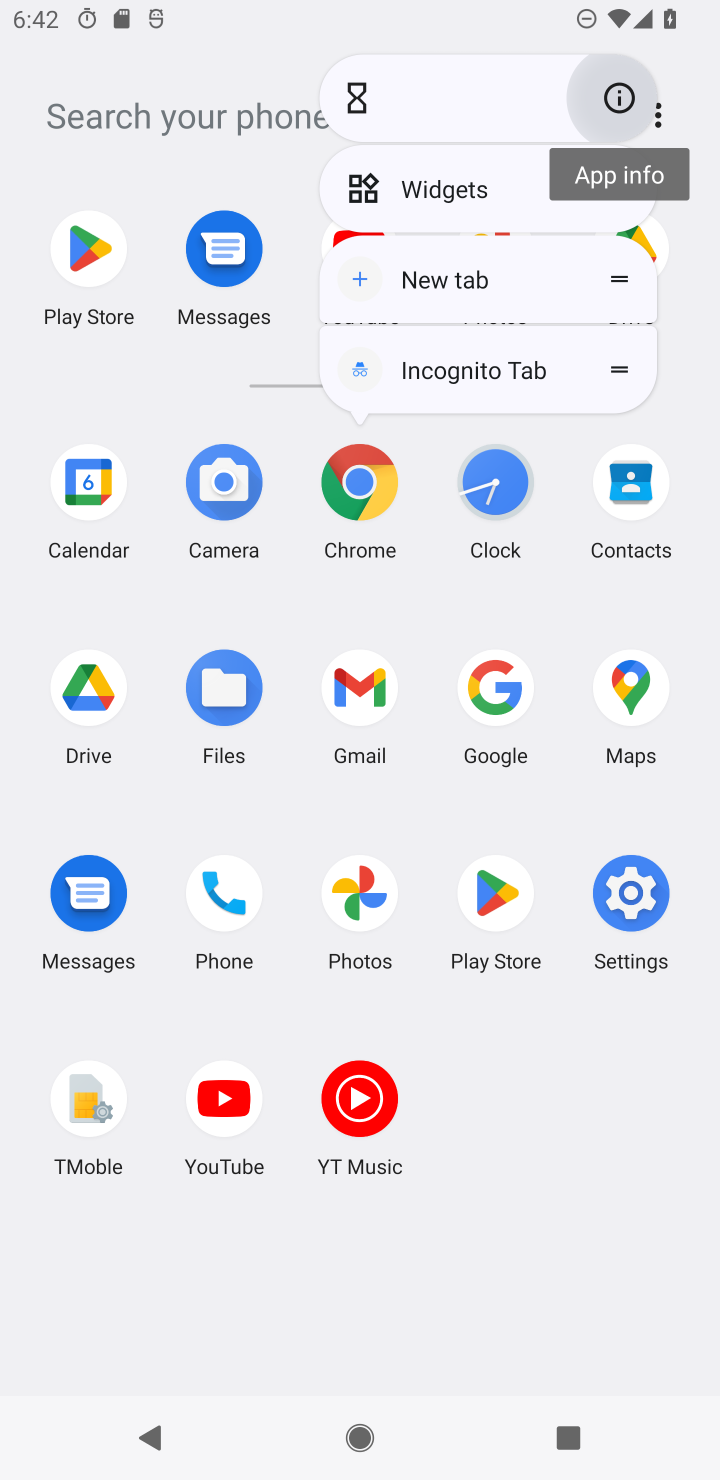
Step 32: click (645, 94)
Your task to perform on an android device: set default search engine in the chrome app Image 33: 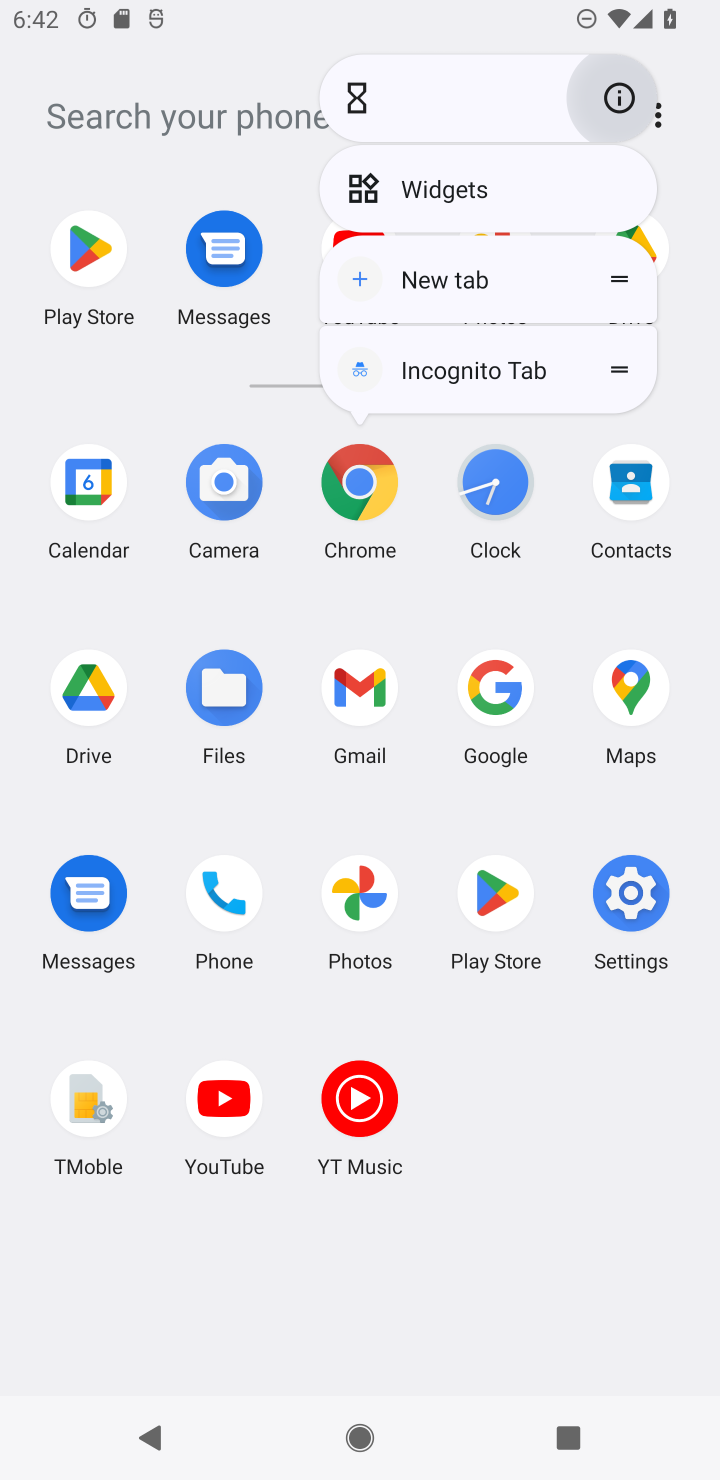
Step 33: click (615, 93)
Your task to perform on an android device: set default search engine in the chrome app Image 34: 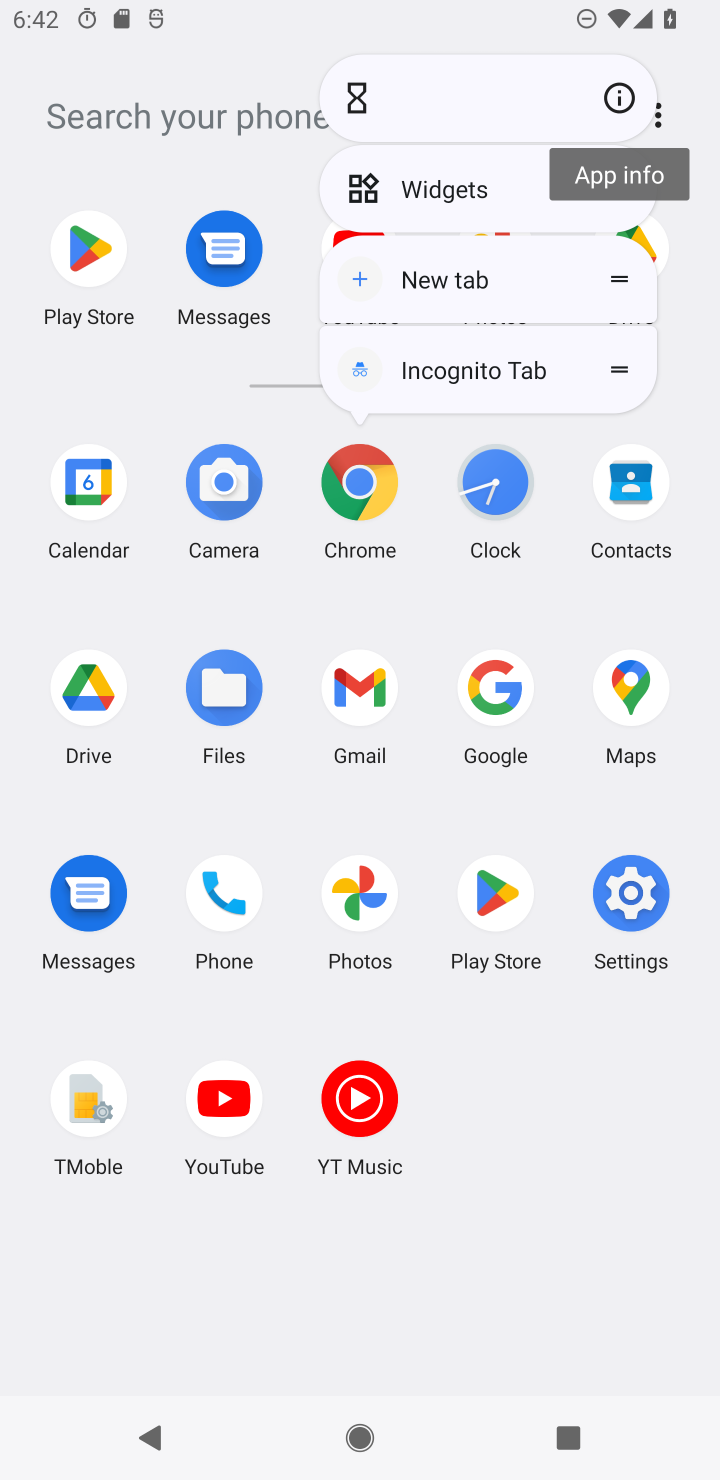
Step 34: click (349, 487)
Your task to perform on an android device: set default search engine in the chrome app Image 35: 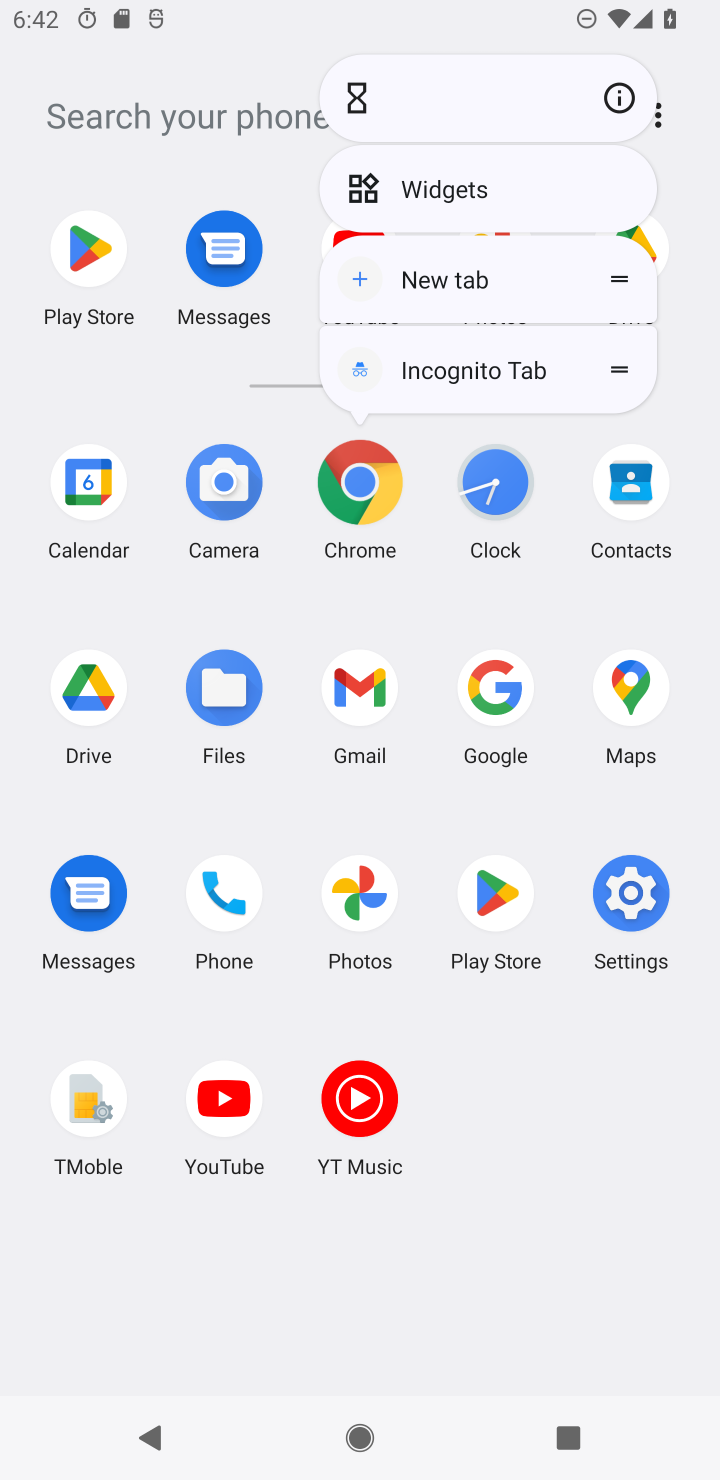
Step 35: click (338, 479)
Your task to perform on an android device: set default search engine in the chrome app Image 36: 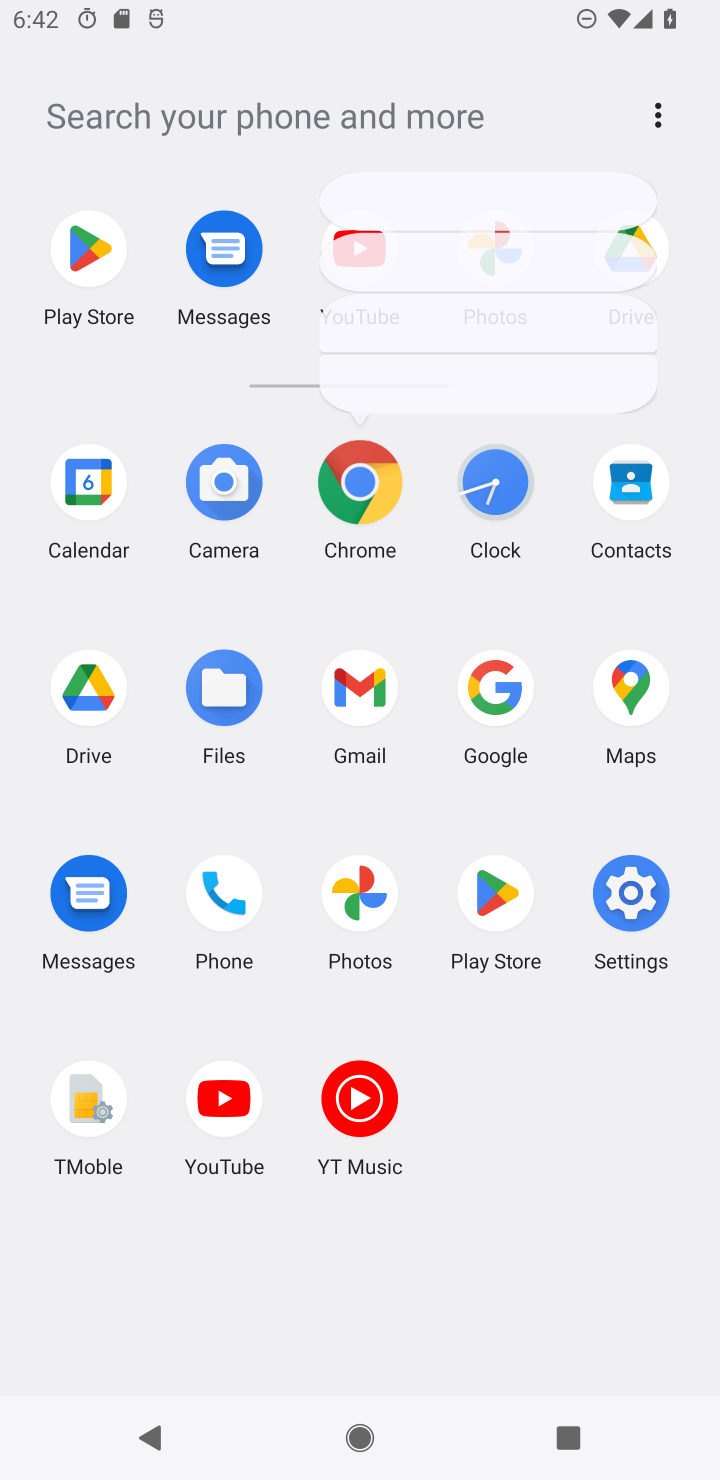
Step 36: click (345, 473)
Your task to perform on an android device: set default search engine in the chrome app Image 37: 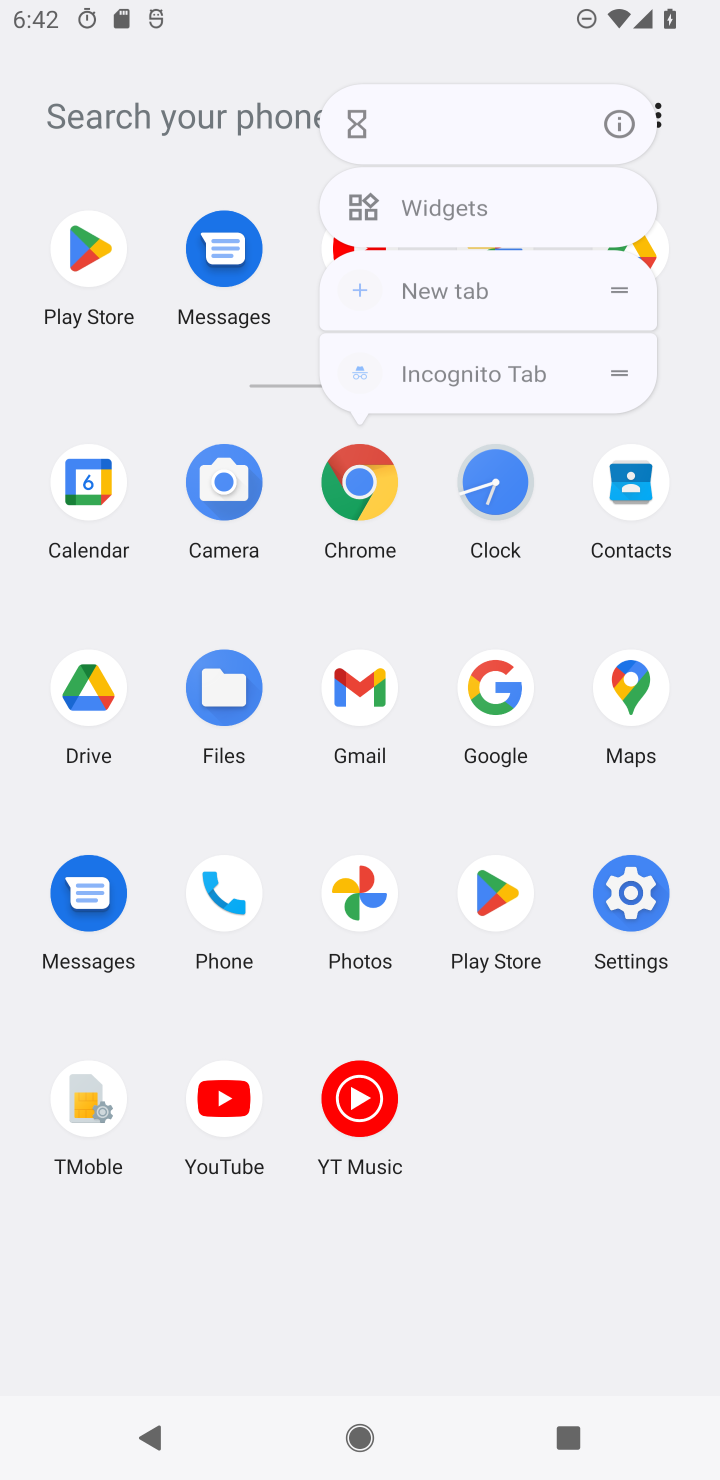
Step 37: click (345, 473)
Your task to perform on an android device: set default search engine in the chrome app Image 38: 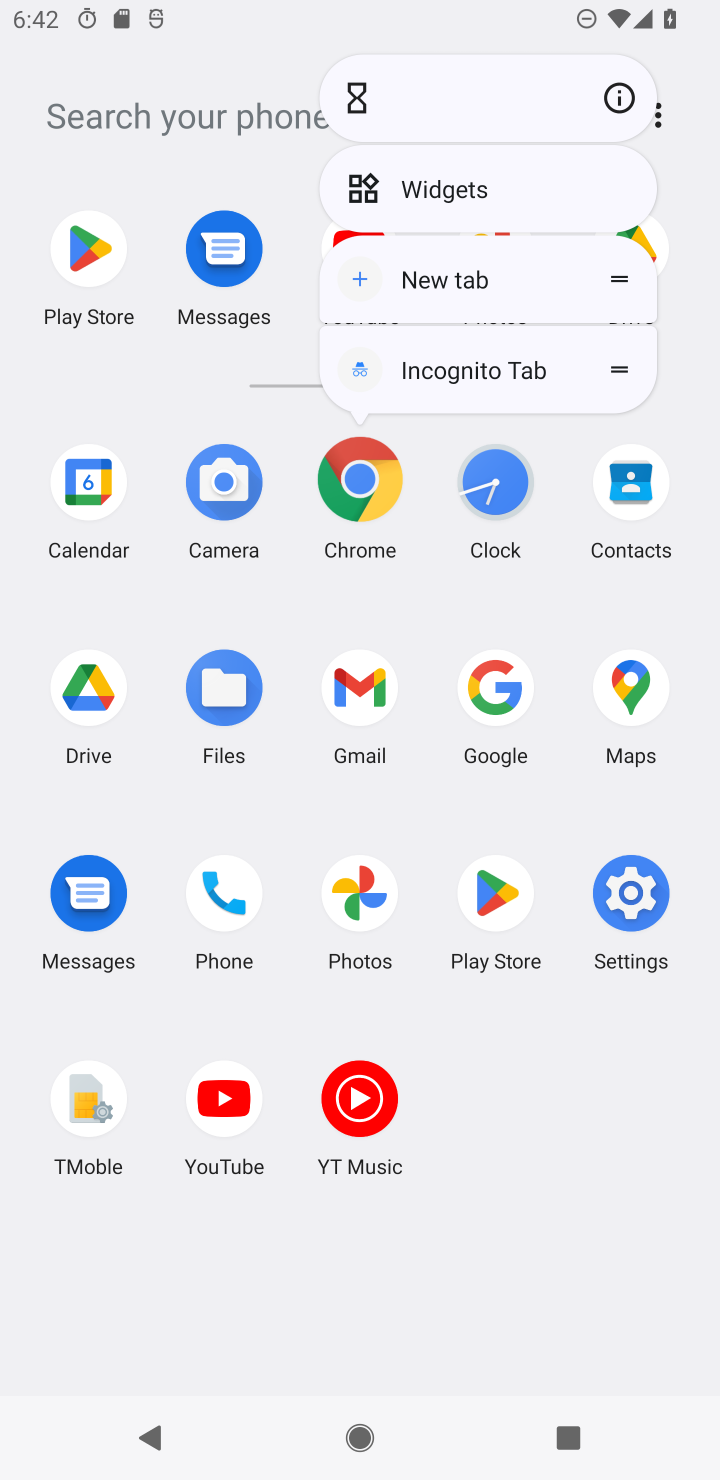
Step 38: click (341, 466)
Your task to perform on an android device: set default search engine in the chrome app Image 39: 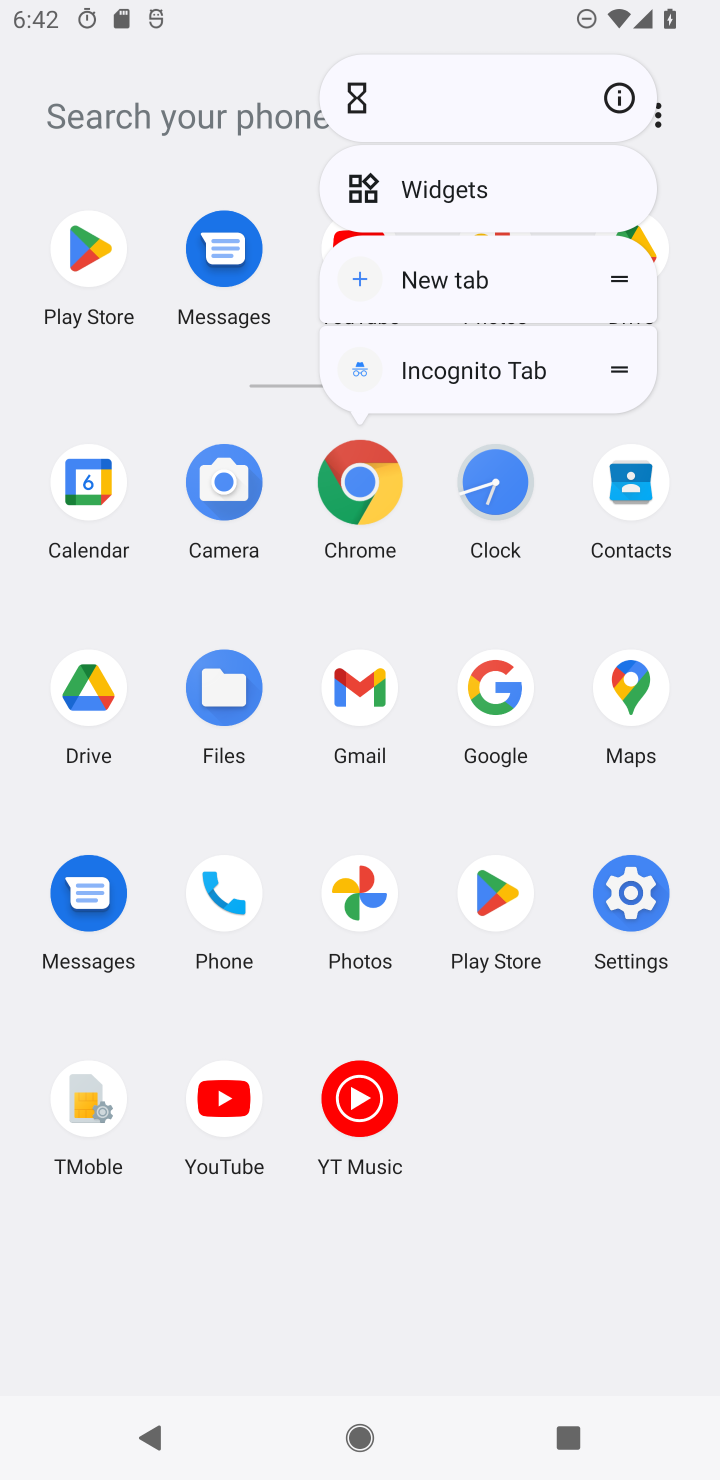
Step 39: click (626, 103)
Your task to perform on an android device: set default search engine in the chrome app Image 40: 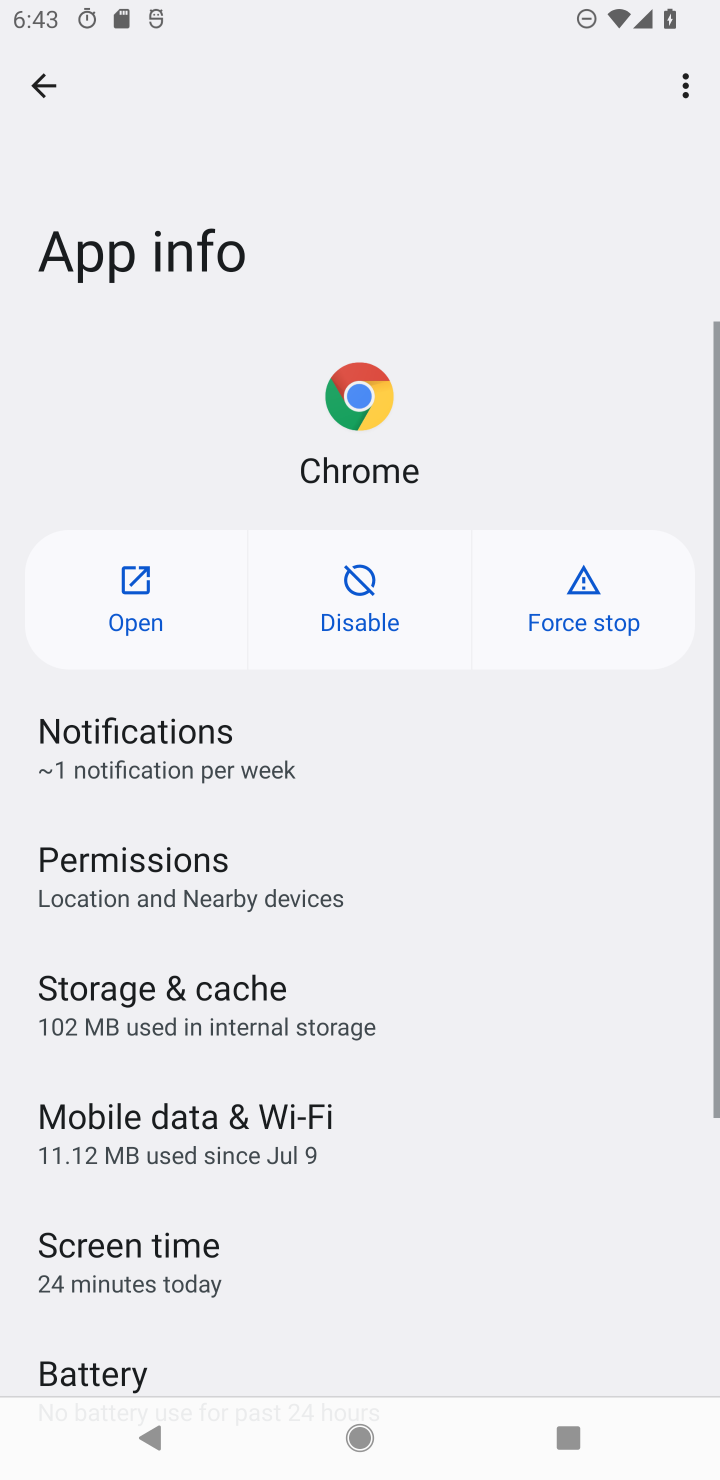
Step 40: click (141, 623)
Your task to perform on an android device: set default search engine in the chrome app Image 41: 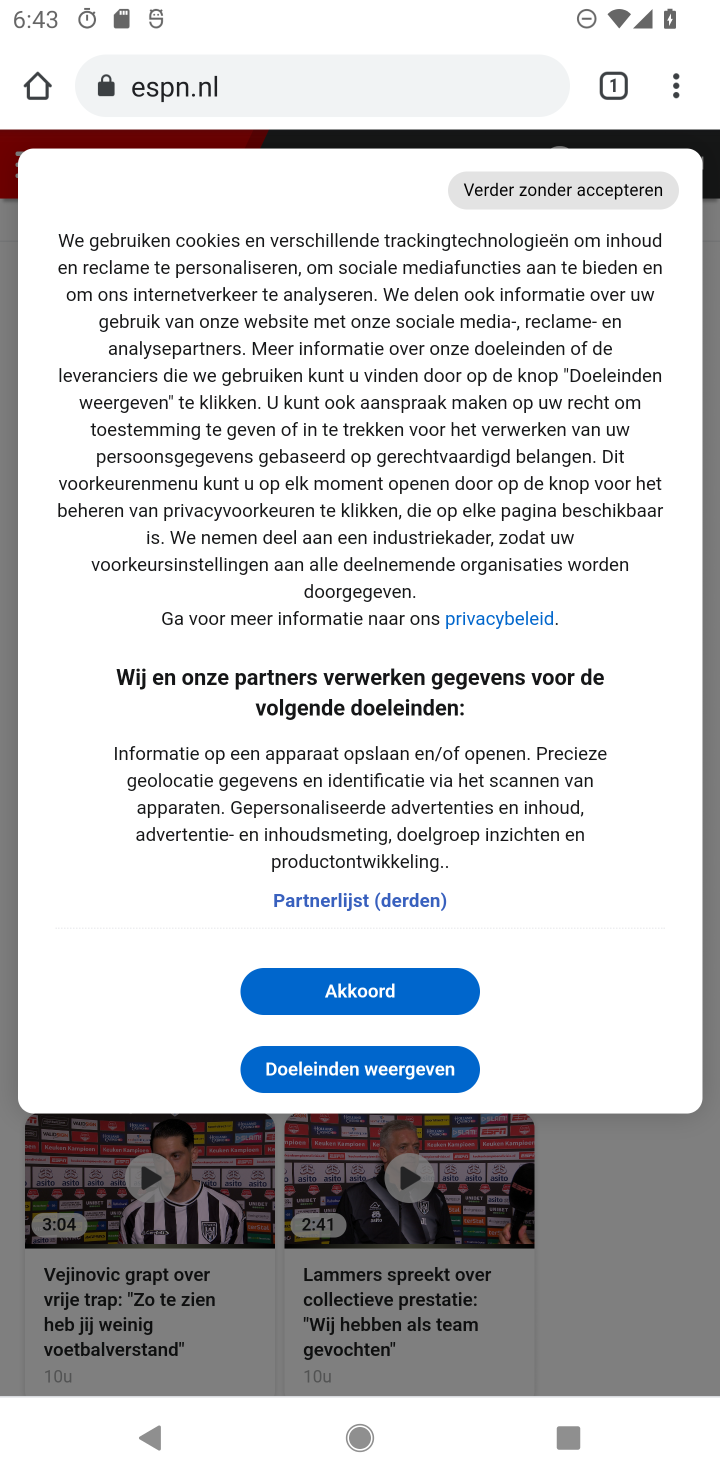
Step 41: drag from (661, 226) to (704, 288)
Your task to perform on an android device: set default search engine in the chrome app Image 42: 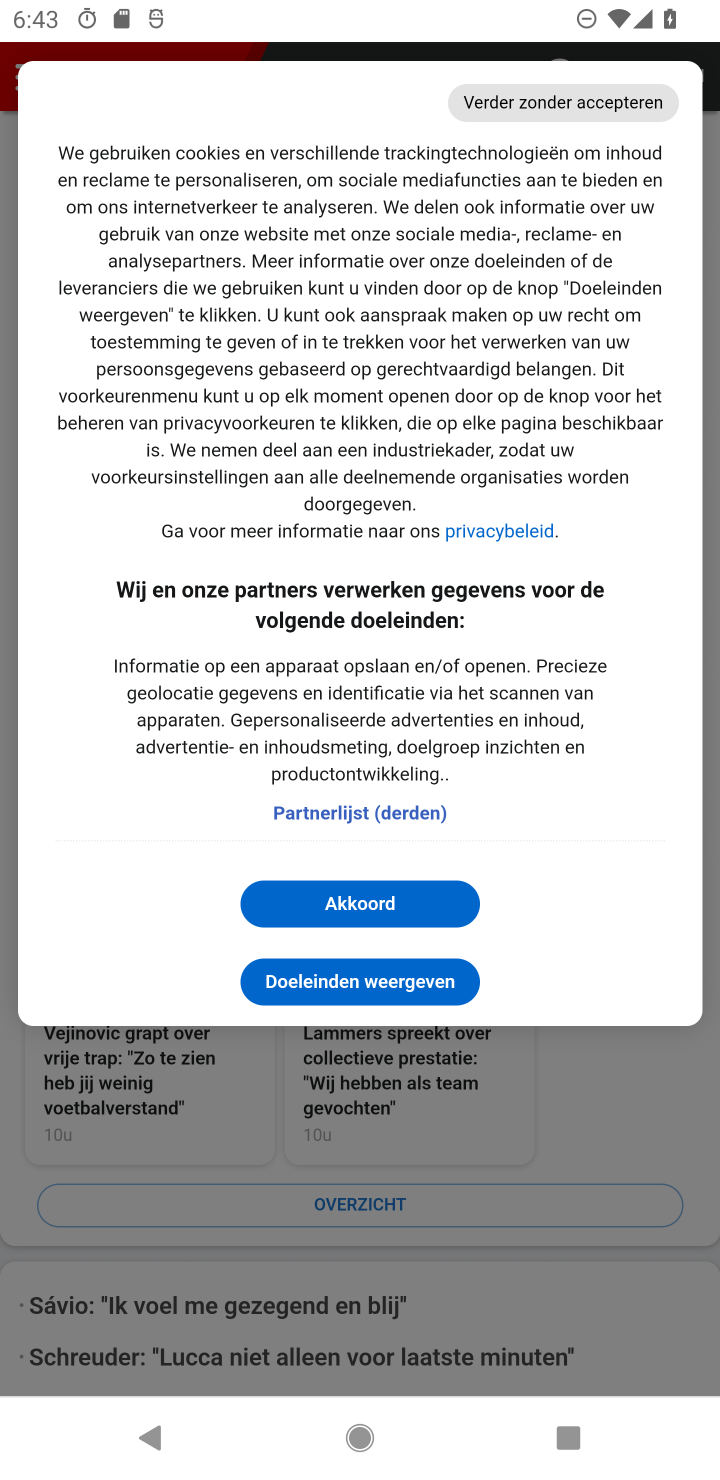
Step 42: drag from (430, 305) to (548, 1169)
Your task to perform on an android device: set default search engine in the chrome app Image 43: 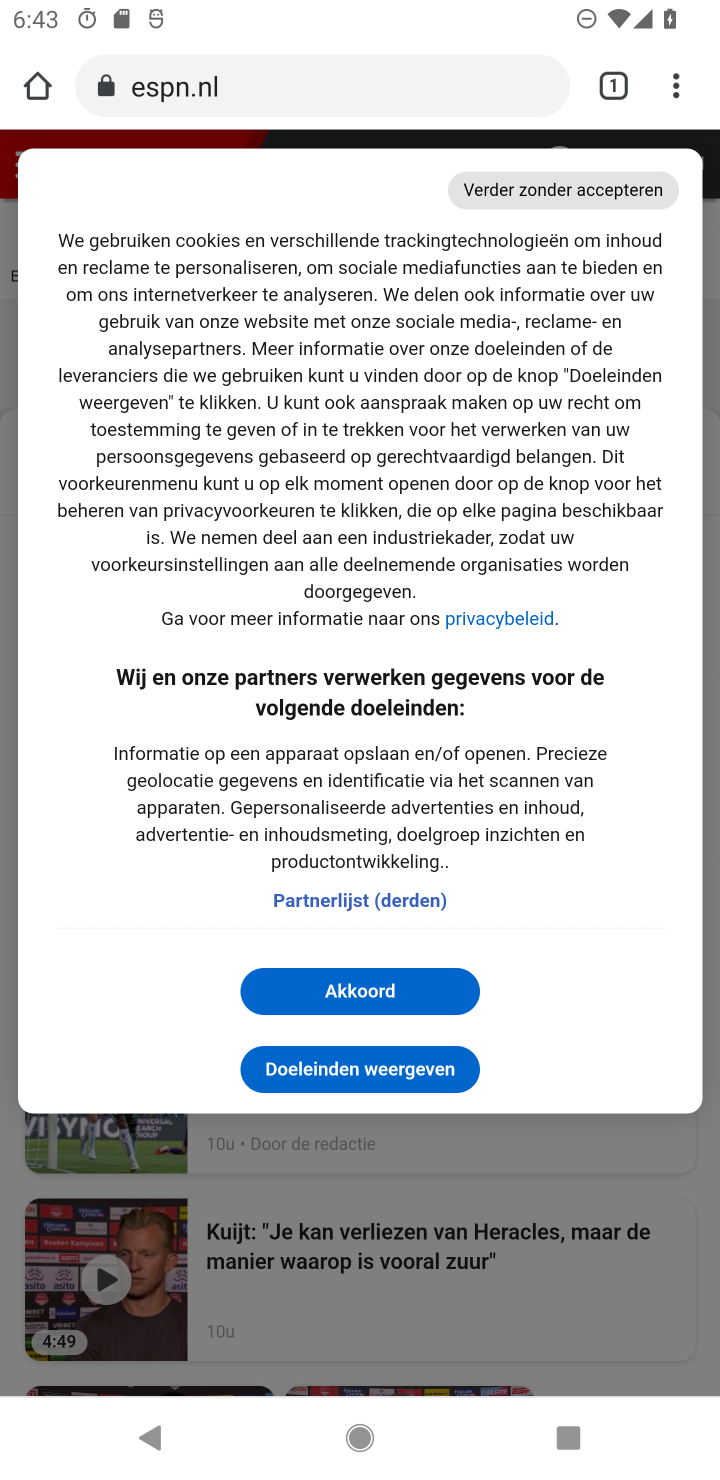
Step 43: click (291, 95)
Your task to perform on an android device: set default search engine in the chrome app Image 44: 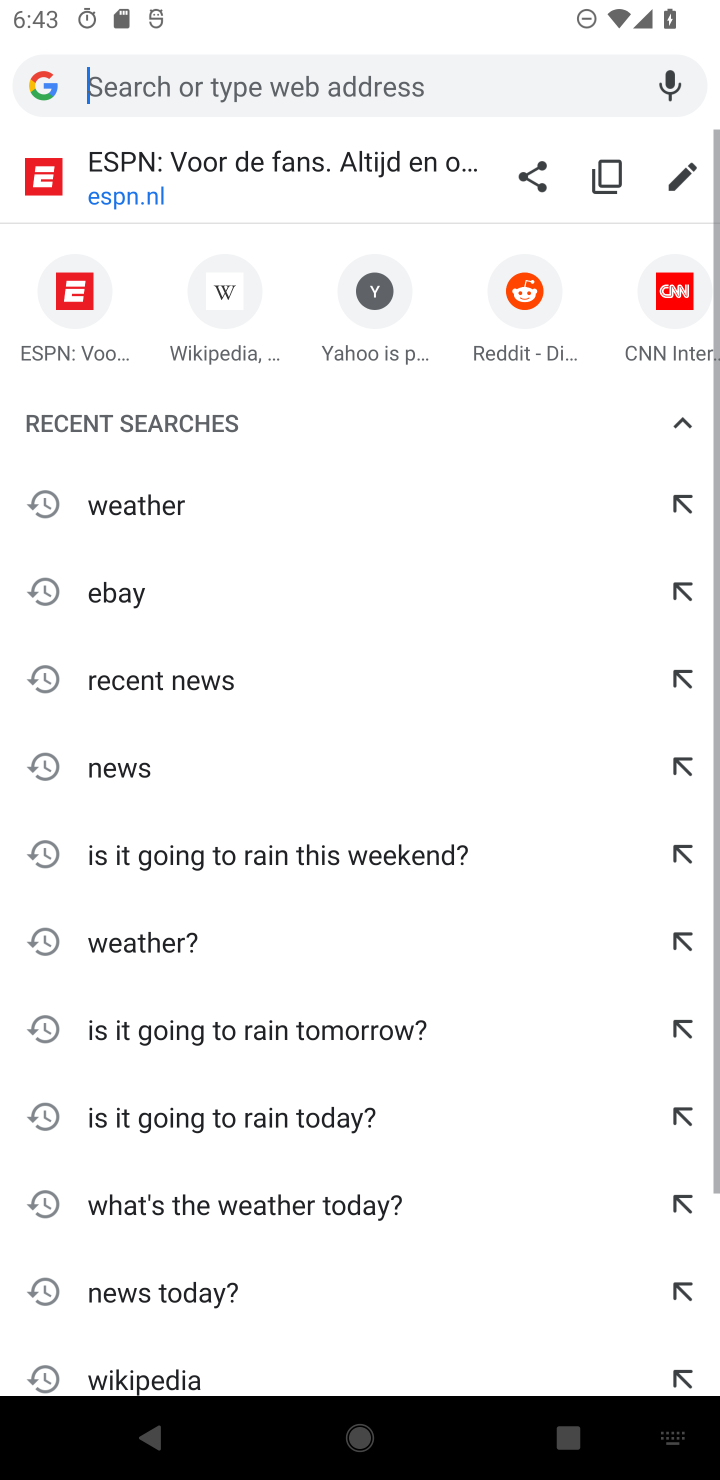
Step 44: press back button
Your task to perform on an android device: set default search engine in the chrome app Image 45: 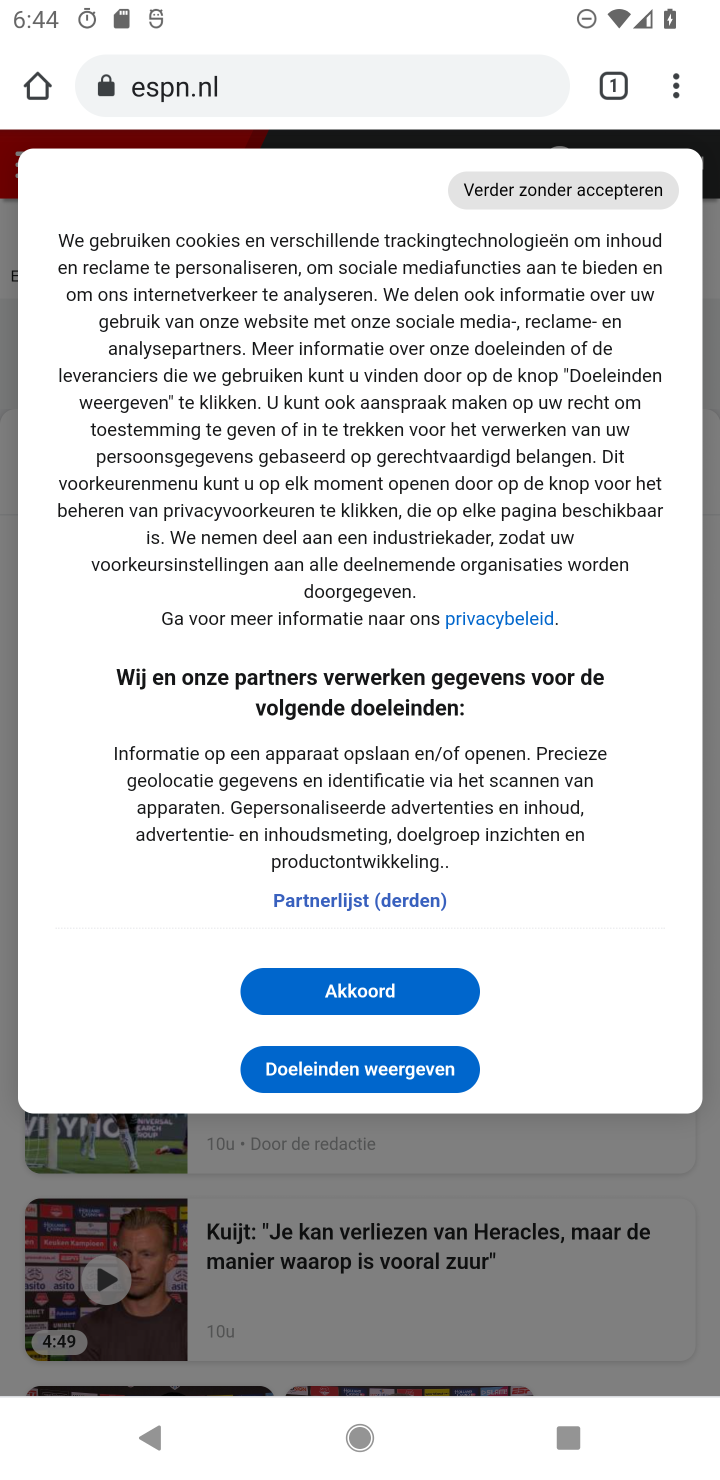
Step 45: drag from (687, 94) to (453, 1159)
Your task to perform on an android device: set default search engine in the chrome app Image 46: 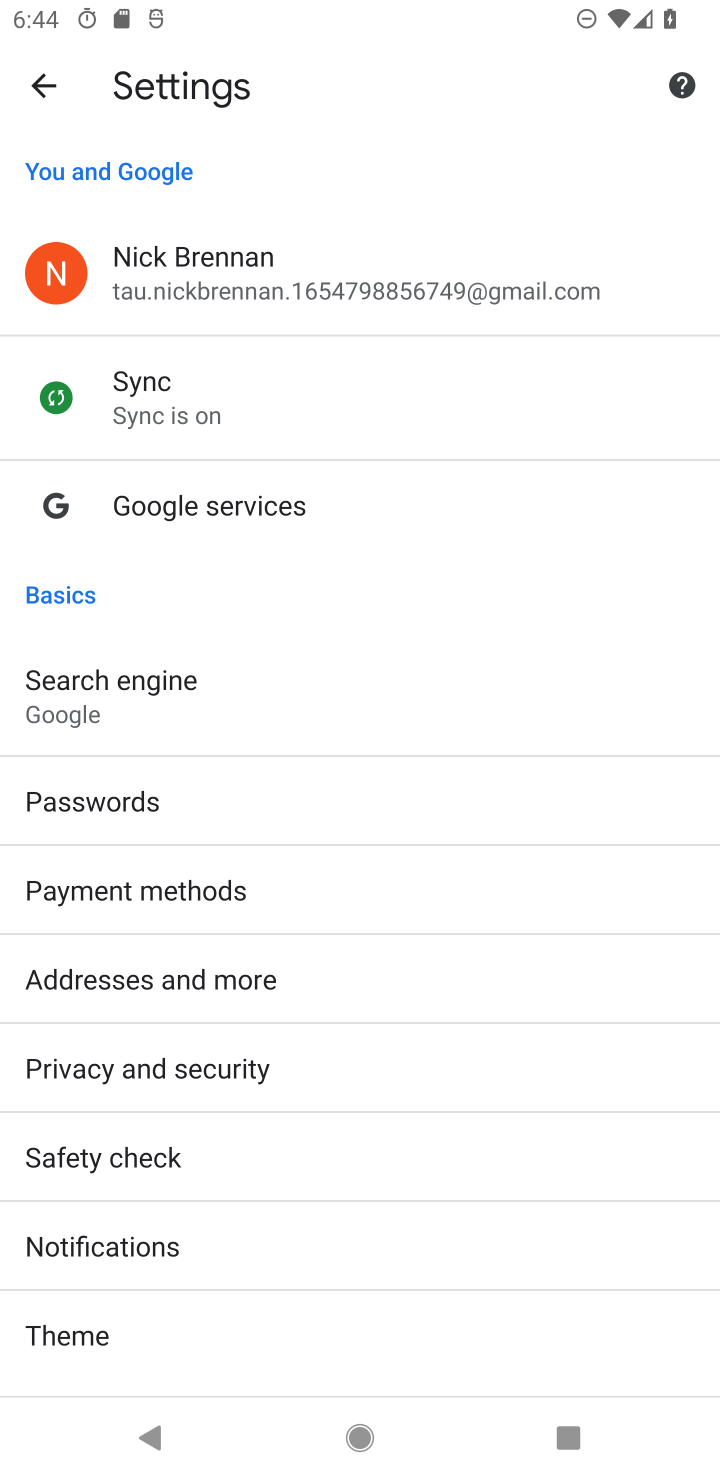
Step 46: click (203, 701)
Your task to perform on an android device: set default search engine in the chrome app Image 47: 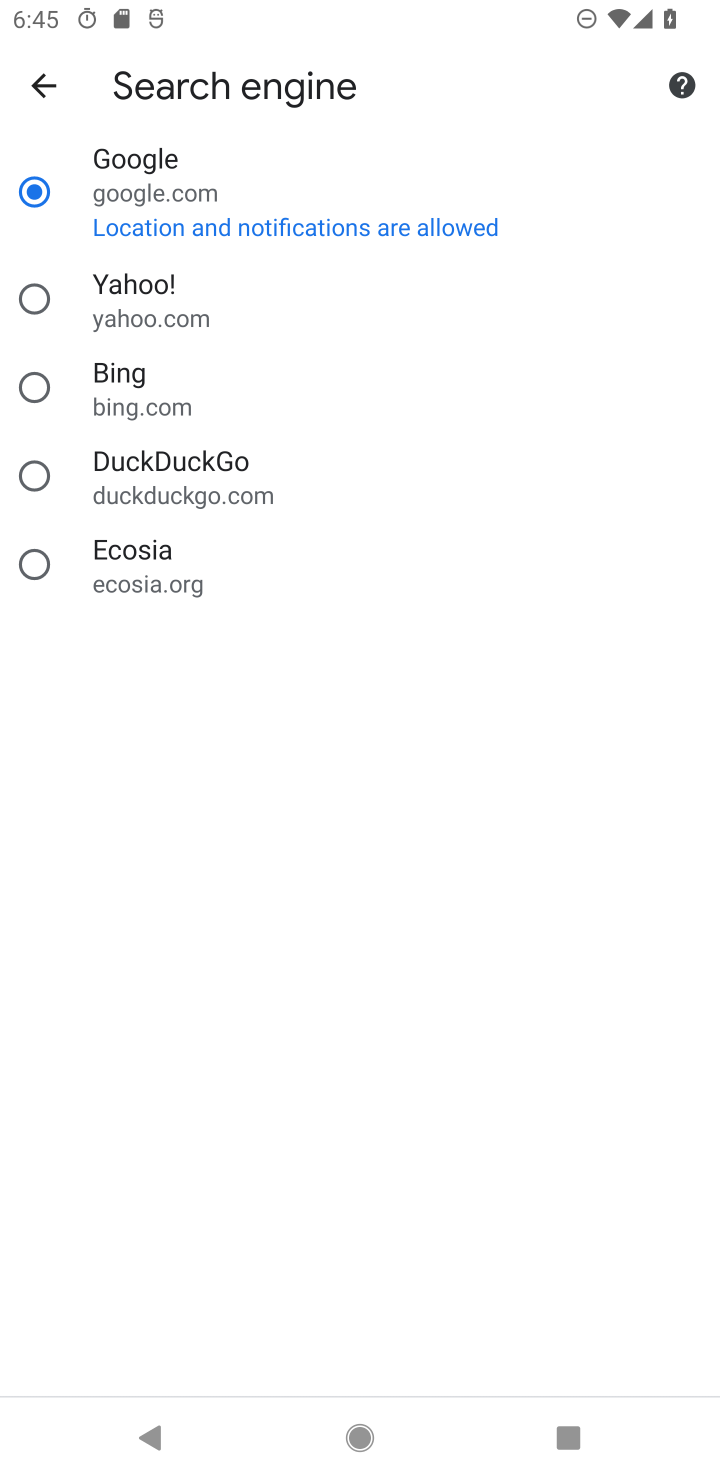
Step 47: drag from (433, 931) to (433, 512)
Your task to perform on an android device: set default search engine in the chrome app Image 48: 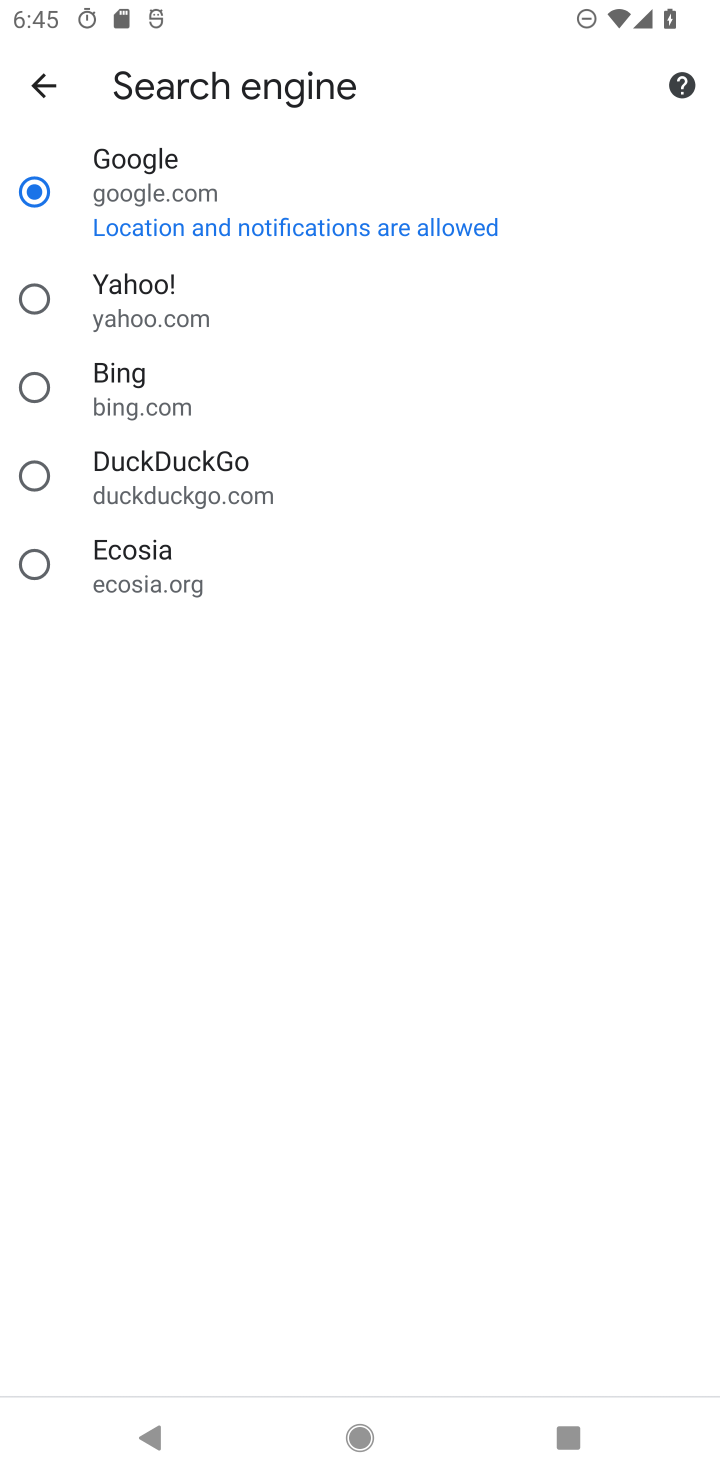
Step 48: click (127, 303)
Your task to perform on an android device: set default search engine in the chrome app Image 49: 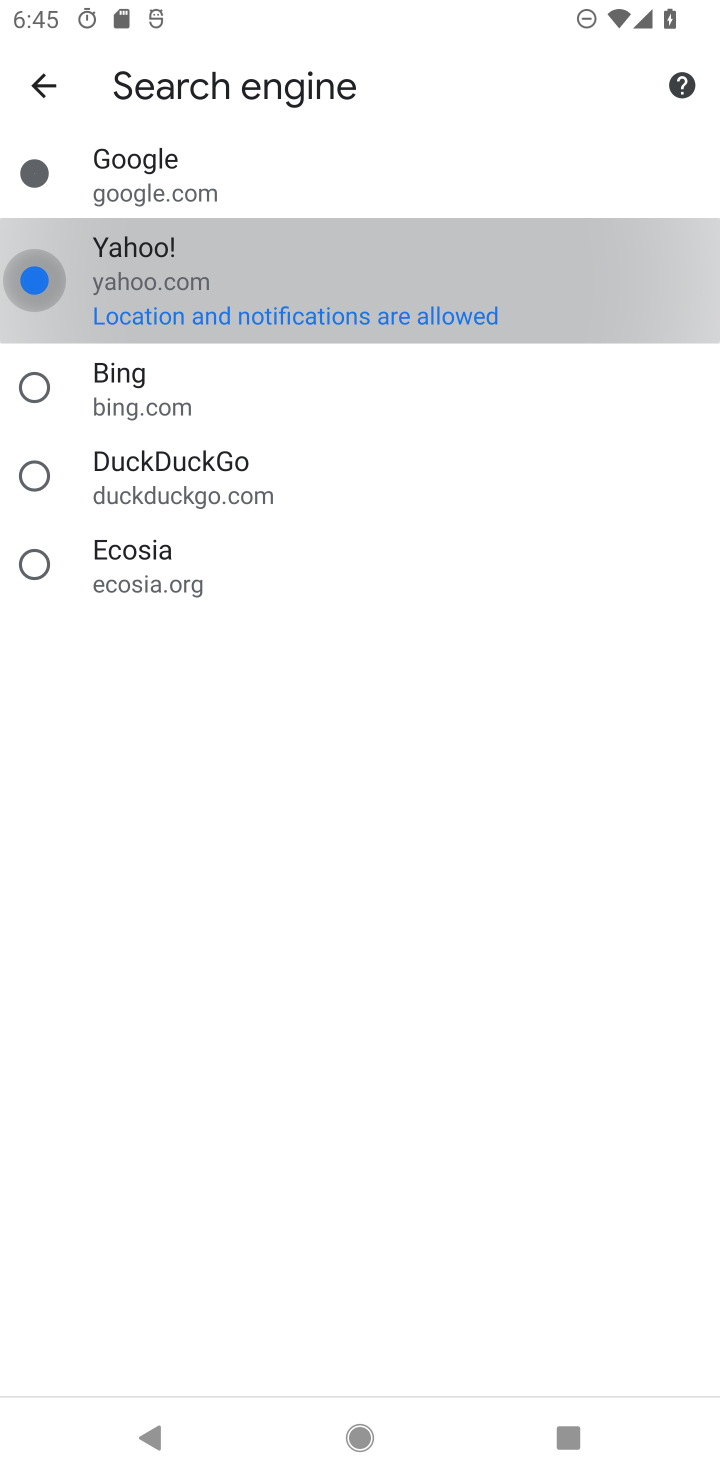
Step 49: task complete